Your task to perform on an android device: Play the new Ariana Grande video on YouTube Image 0: 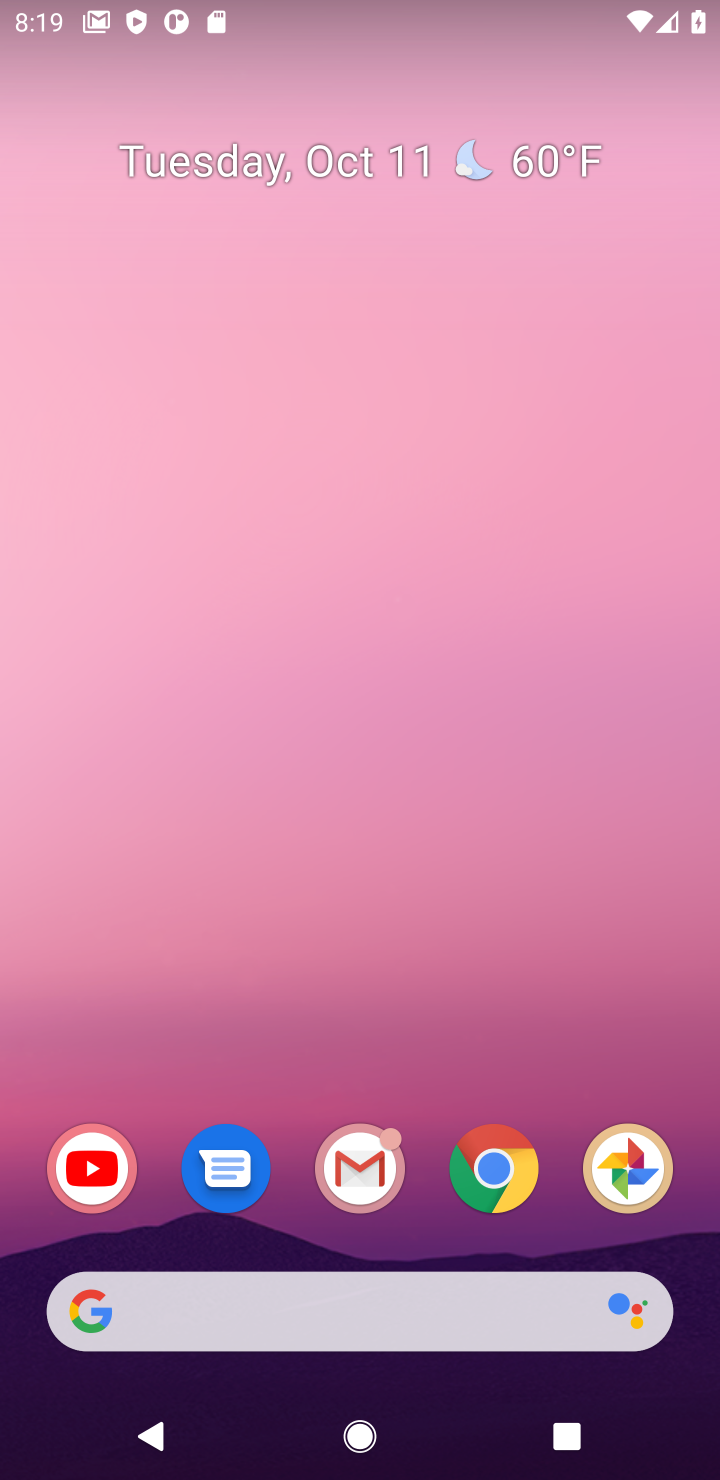
Step 0: click (467, 1170)
Your task to perform on an android device: Play the new Ariana Grande video on YouTube Image 1: 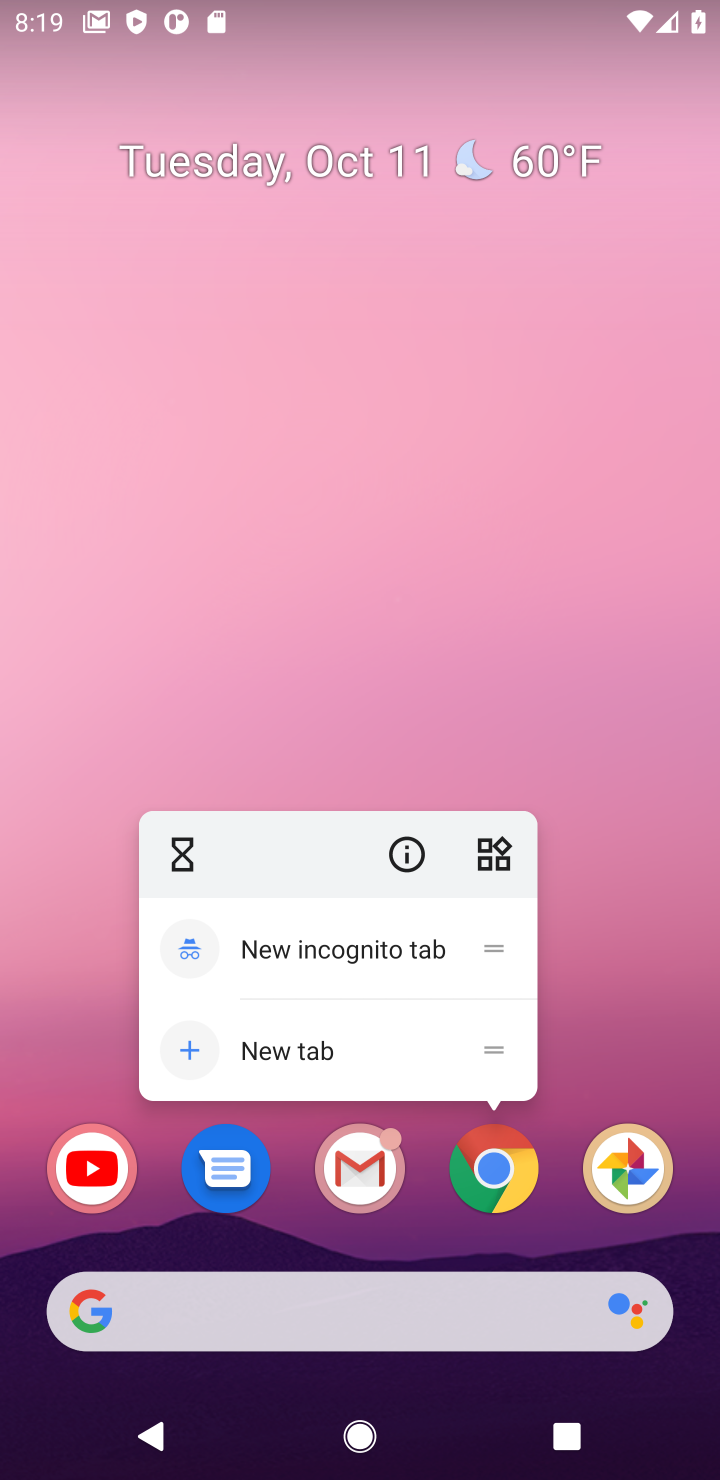
Step 1: drag from (611, 636) to (626, 411)
Your task to perform on an android device: Play the new Ariana Grande video on YouTube Image 2: 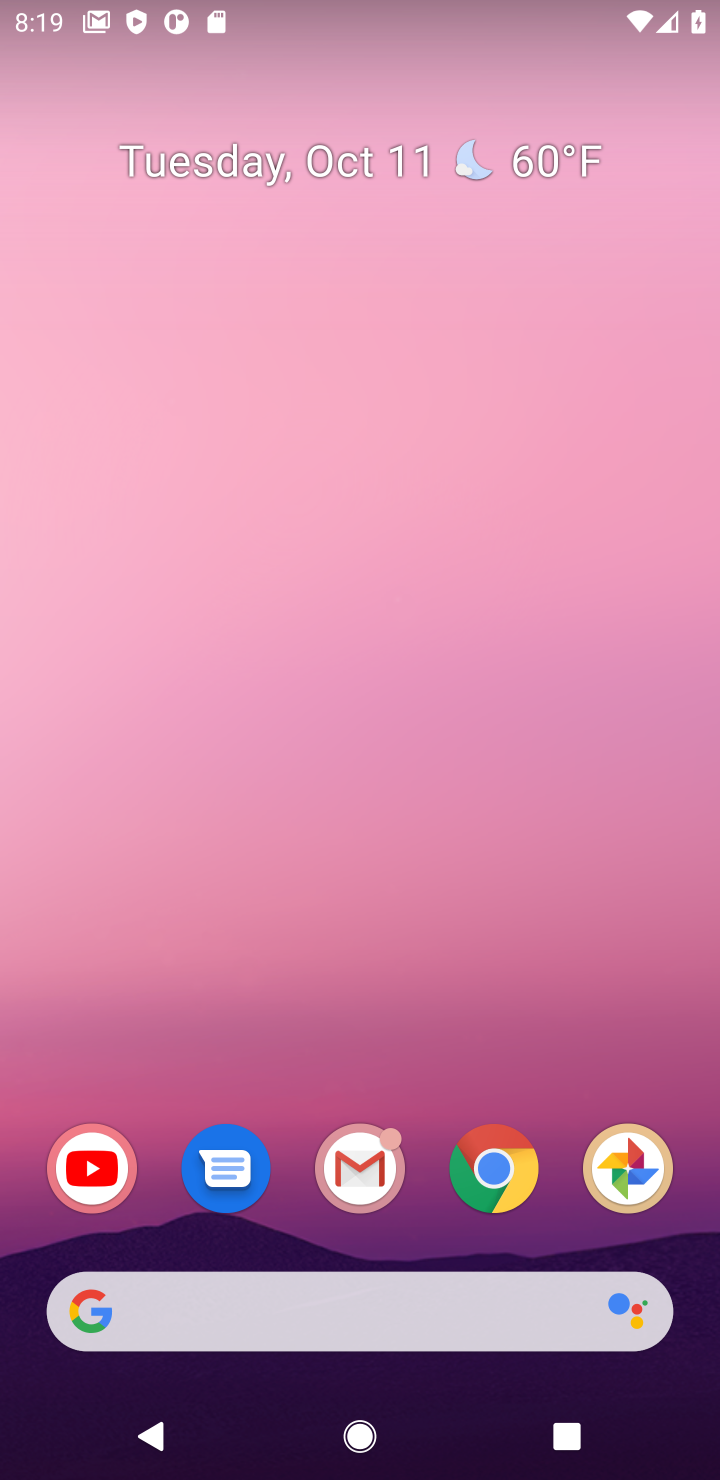
Step 2: click (79, 1172)
Your task to perform on an android device: Play the new Ariana Grande video on YouTube Image 3: 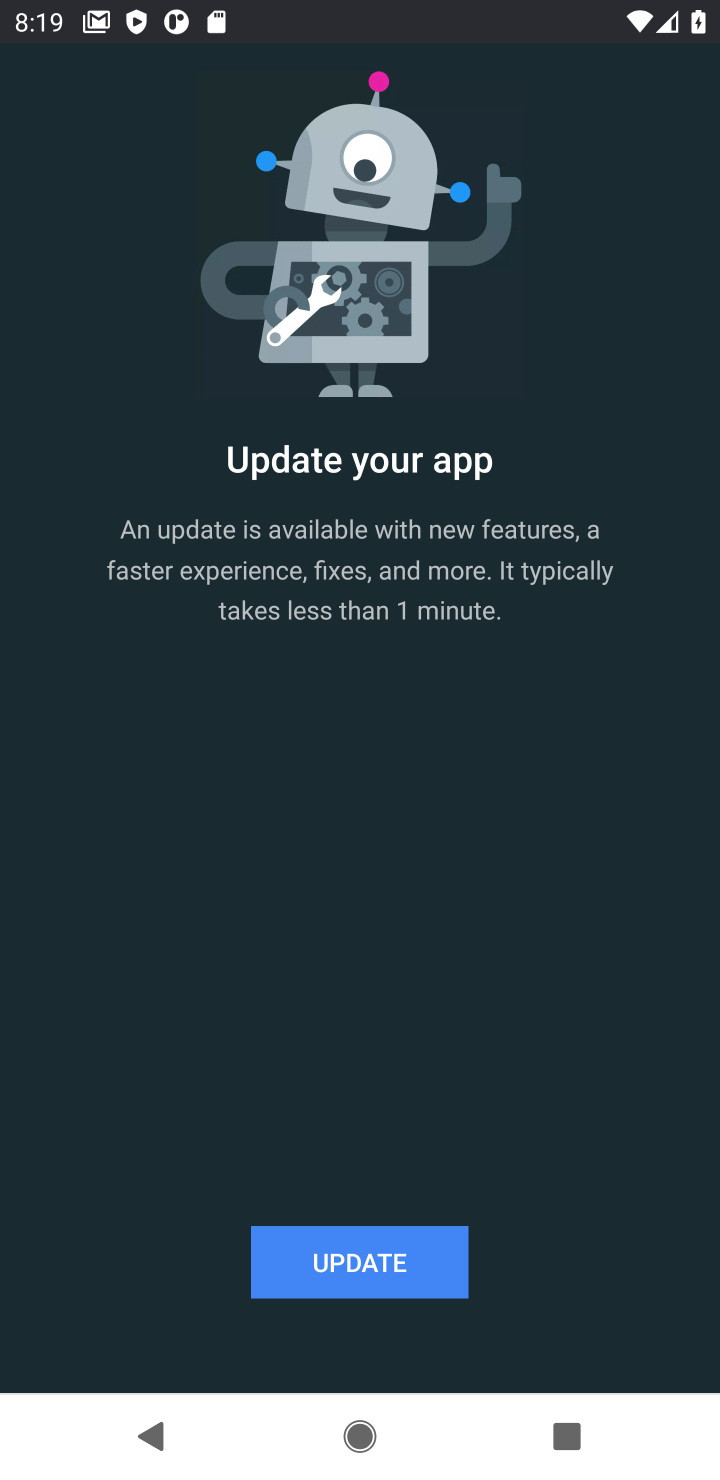
Step 3: click (380, 1267)
Your task to perform on an android device: Play the new Ariana Grande video on YouTube Image 4: 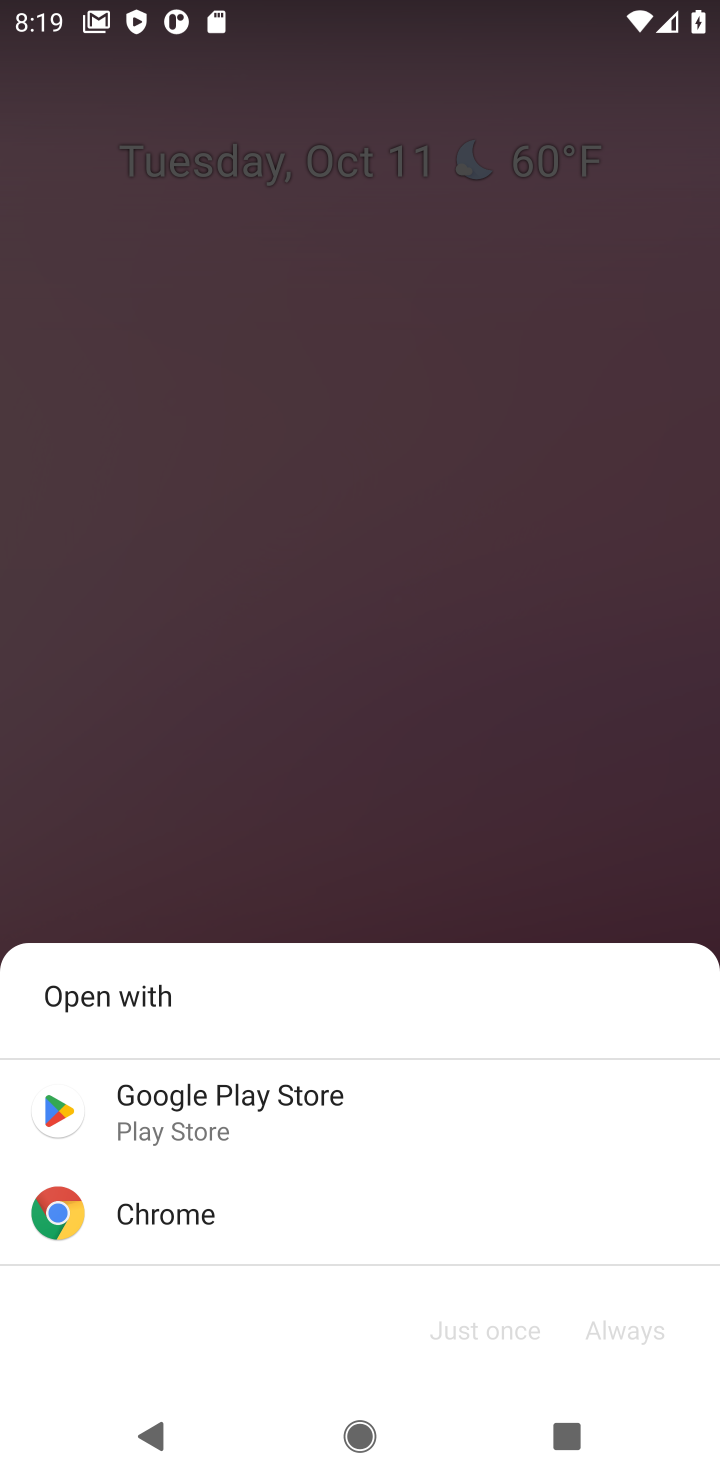
Step 4: click (442, 703)
Your task to perform on an android device: Play the new Ariana Grande video on YouTube Image 5: 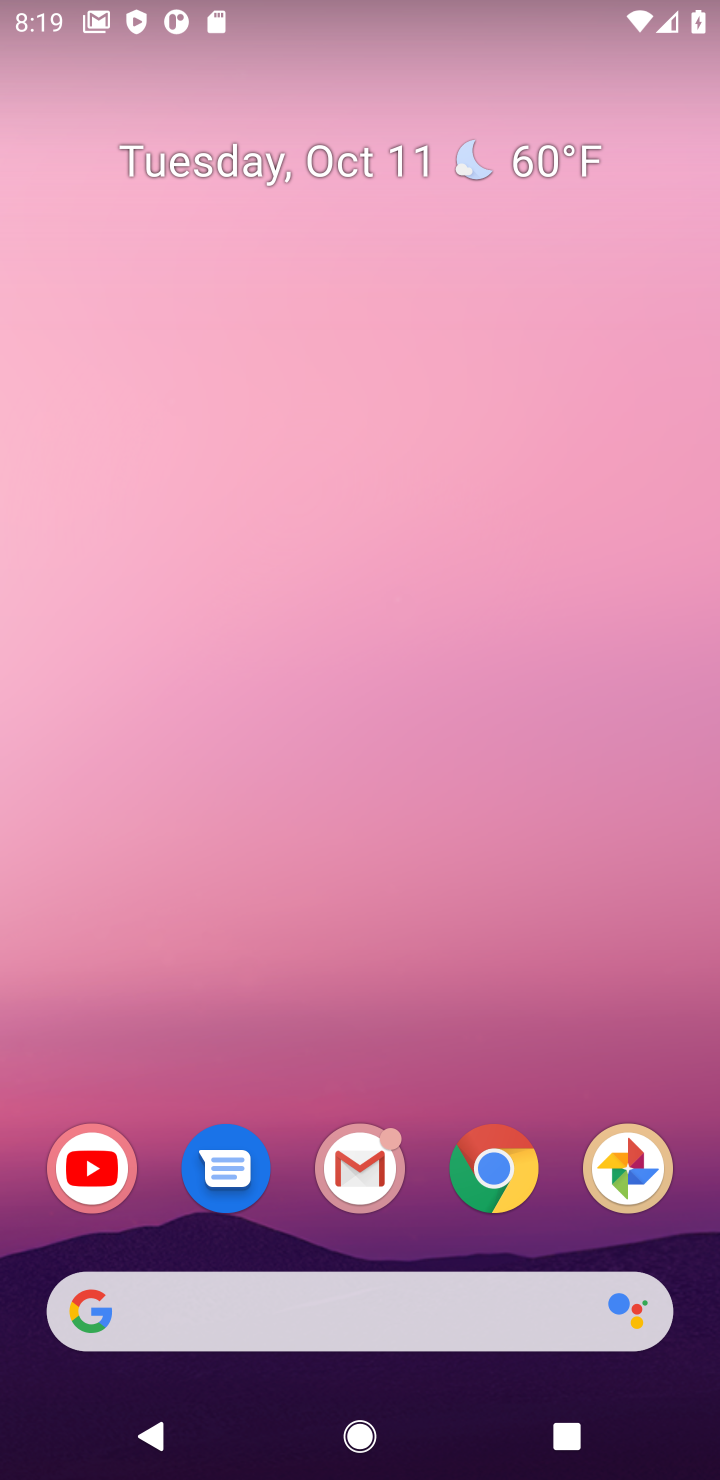
Step 5: press home button
Your task to perform on an android device: Play the new Ariana Grande video on YouTube Image 6: 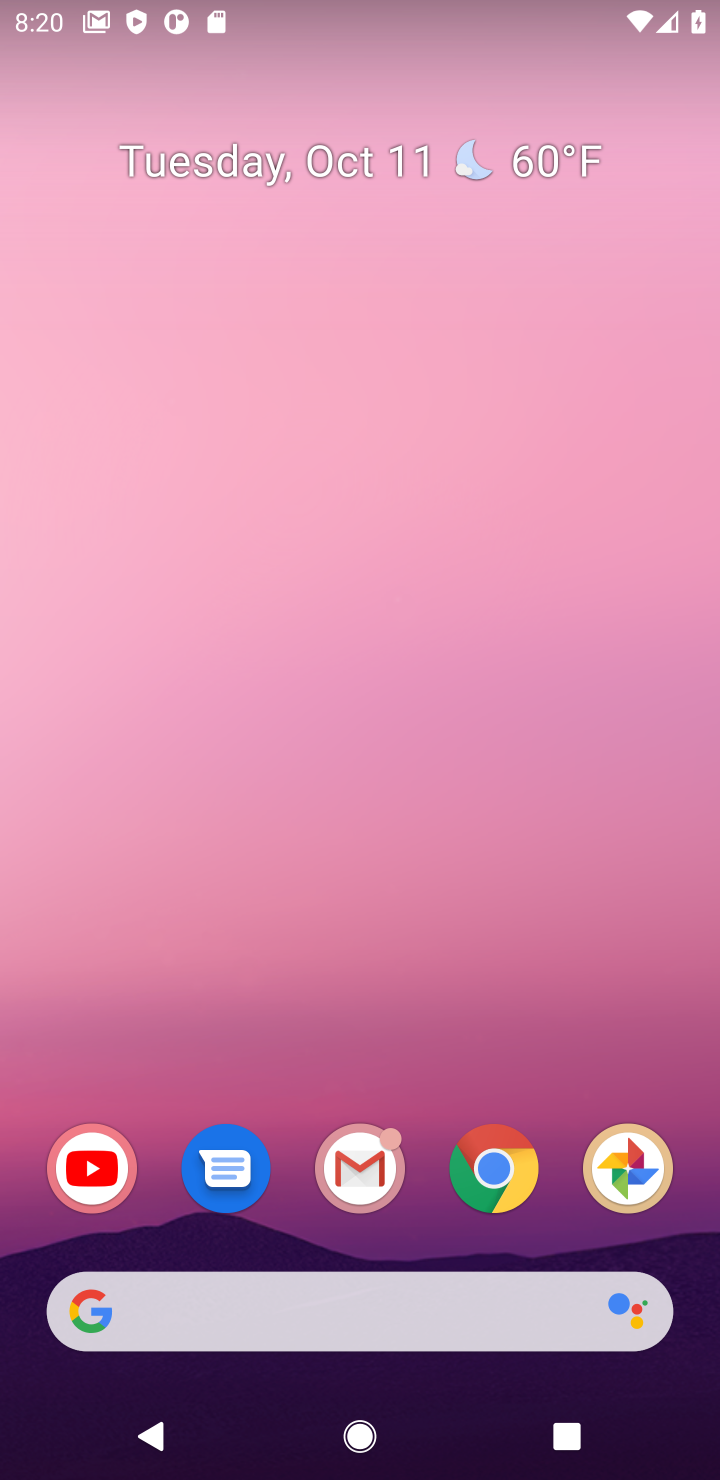
Step 6: drag from (411, 774) to (447, 290)
Your task to perform on an android device: Play the new Ariana Grande video on YouTube Image 7: 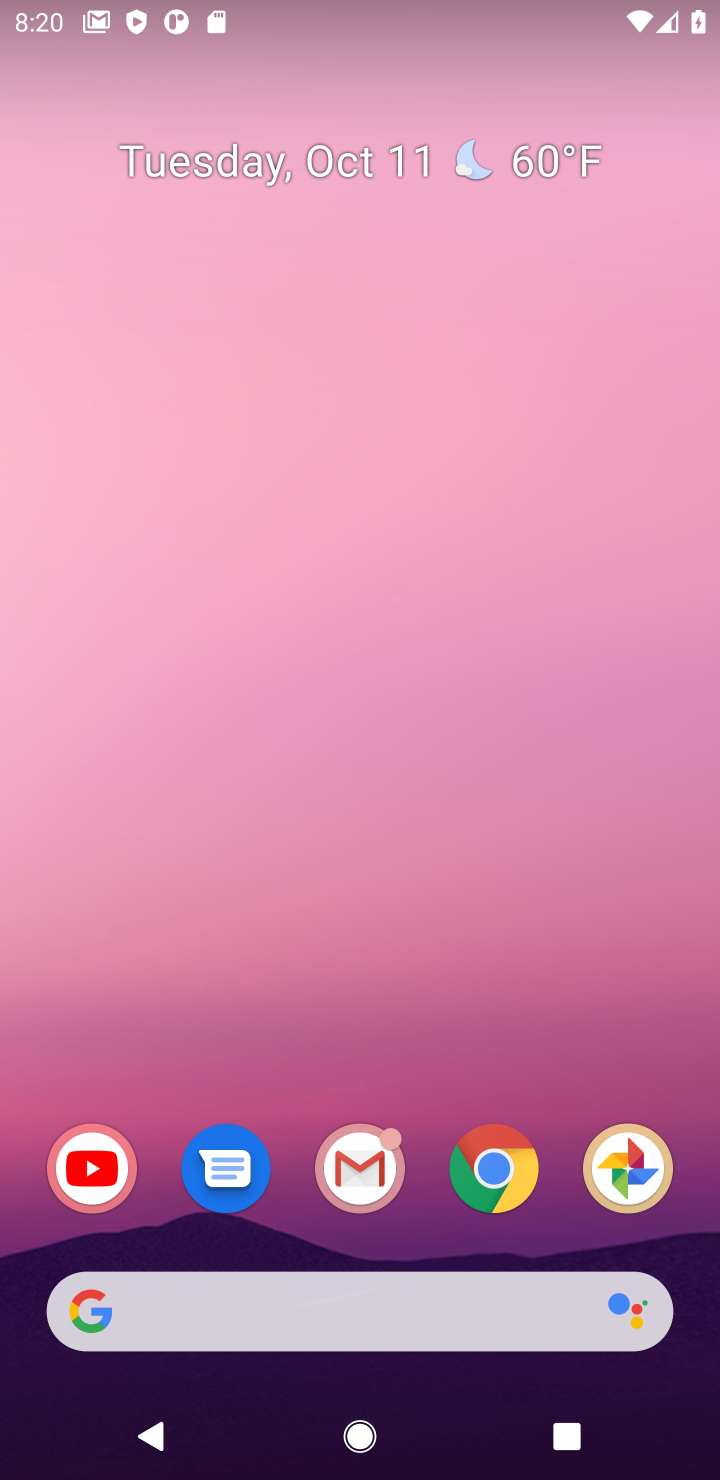
Step 7: drag from (383, 695) to (429, 362)
Your task to perform on an android device: Play the new Ariana Grande video on YouTube Image 8: 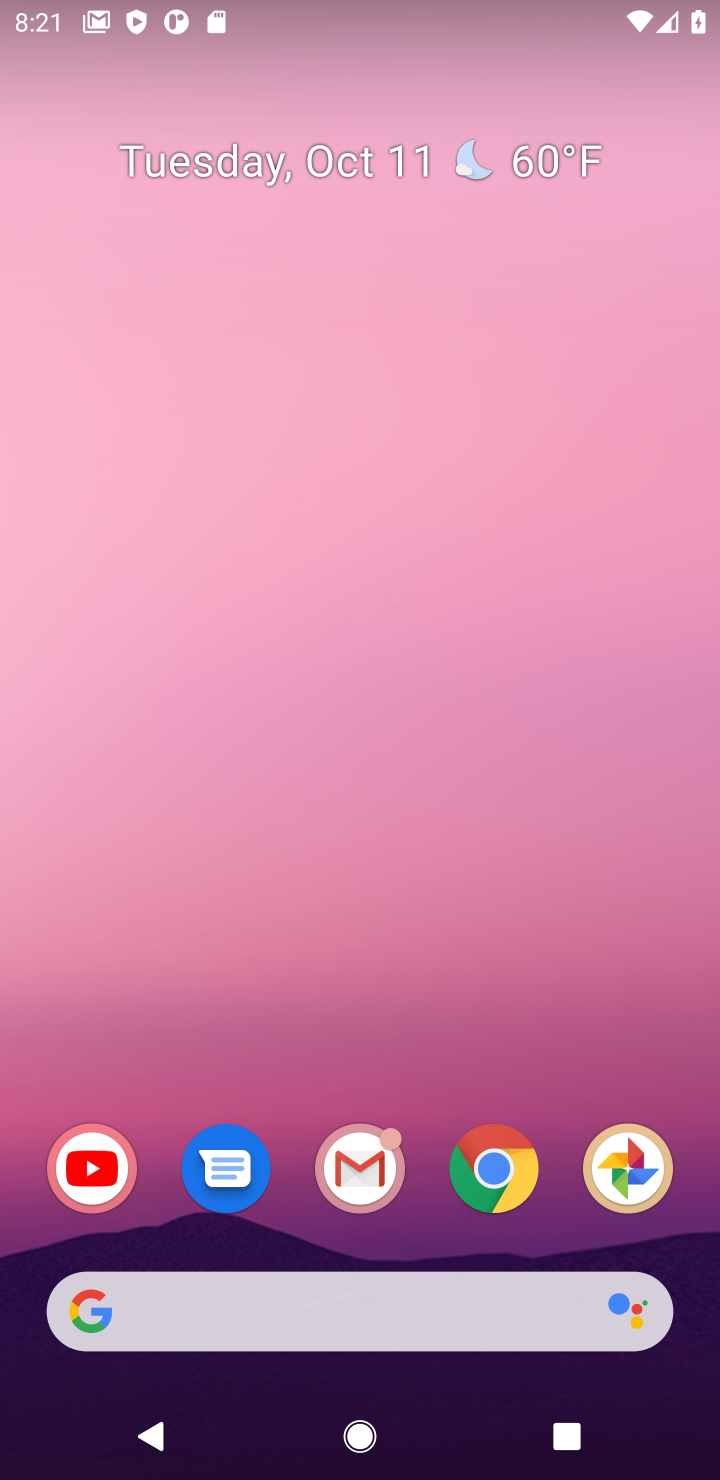
Step 8: click (469, 1151)
Your task to perform on an android device: Play the new Ariana Grande video on YouTube Image 9: 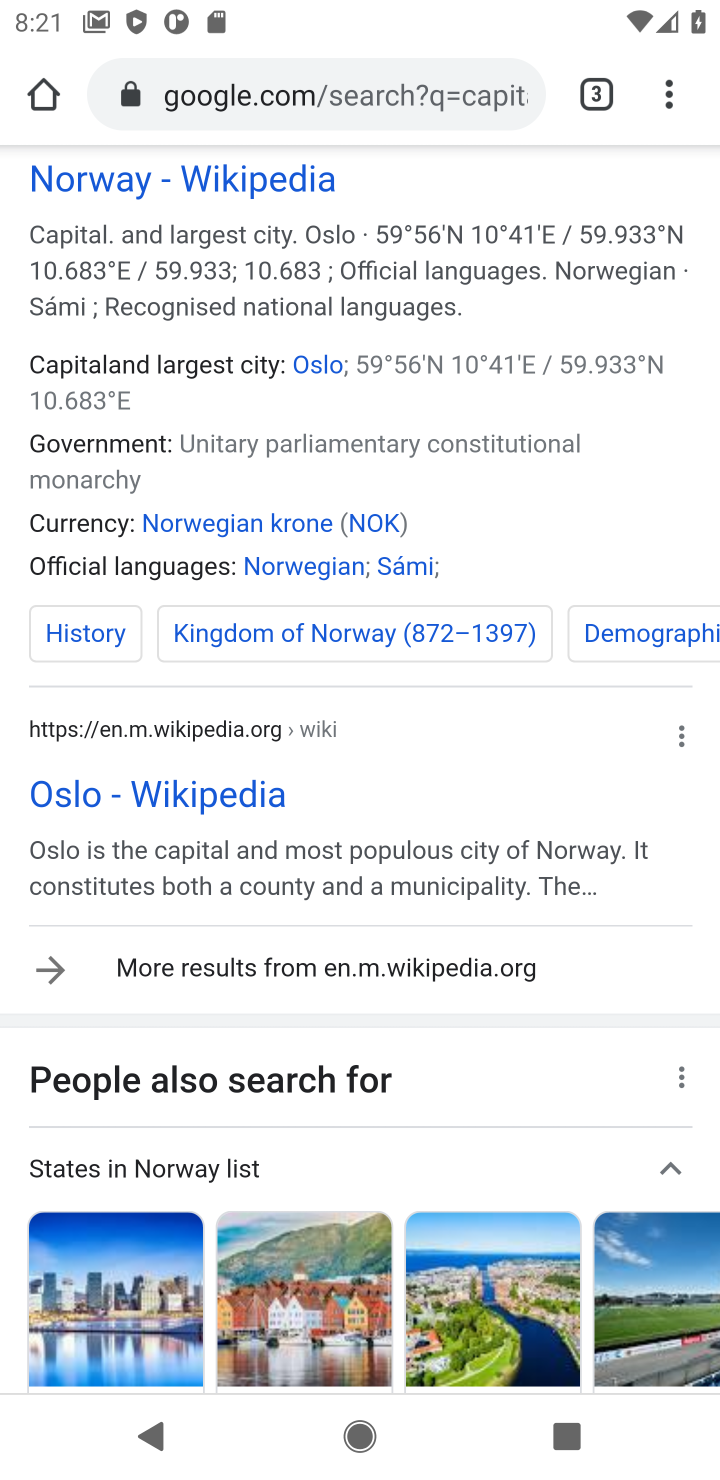
Step 9: click (204, 107)
Your task to perform on an android device: Play the new Ariana Grande video on YouTube Image 10: 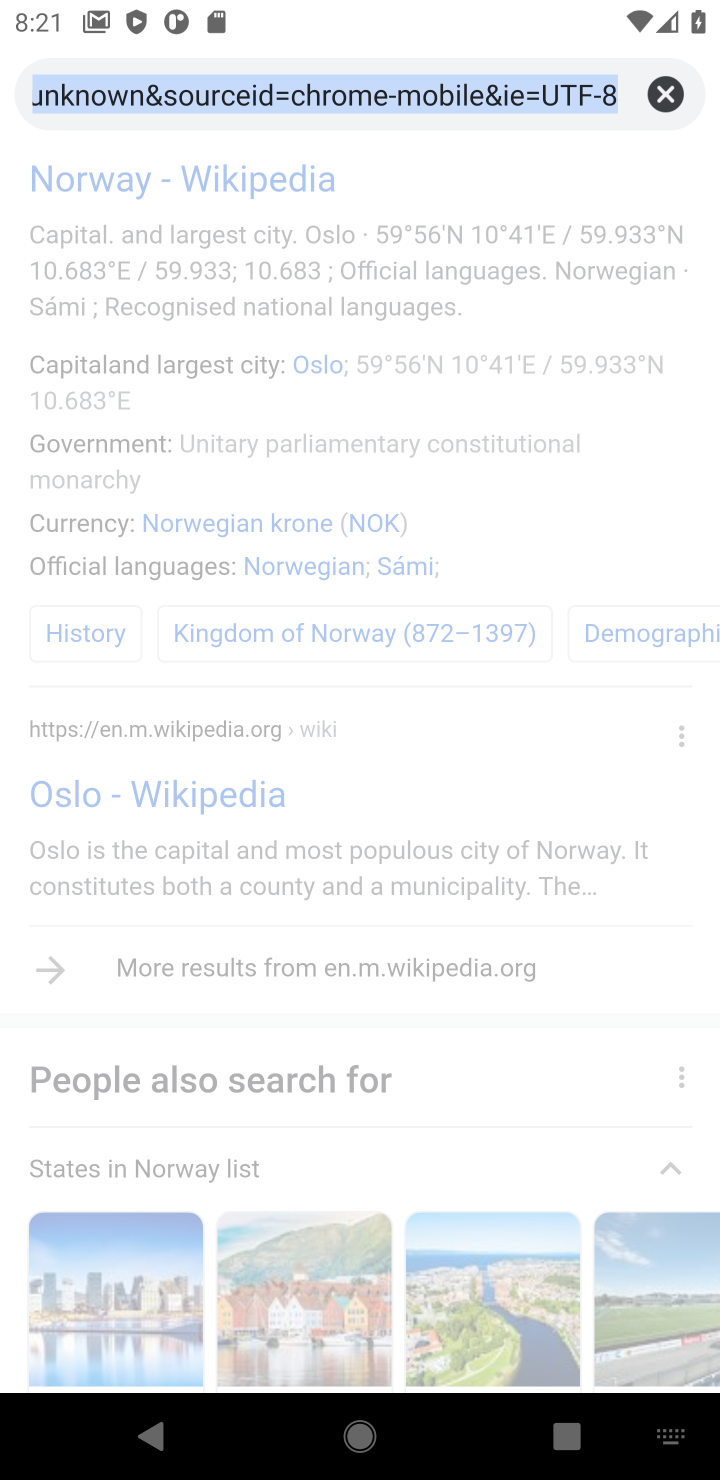
Step 10: click (670, 79)
Your task to perform on an android device: Play the new Ariana Grande video on YouTube Image 11: 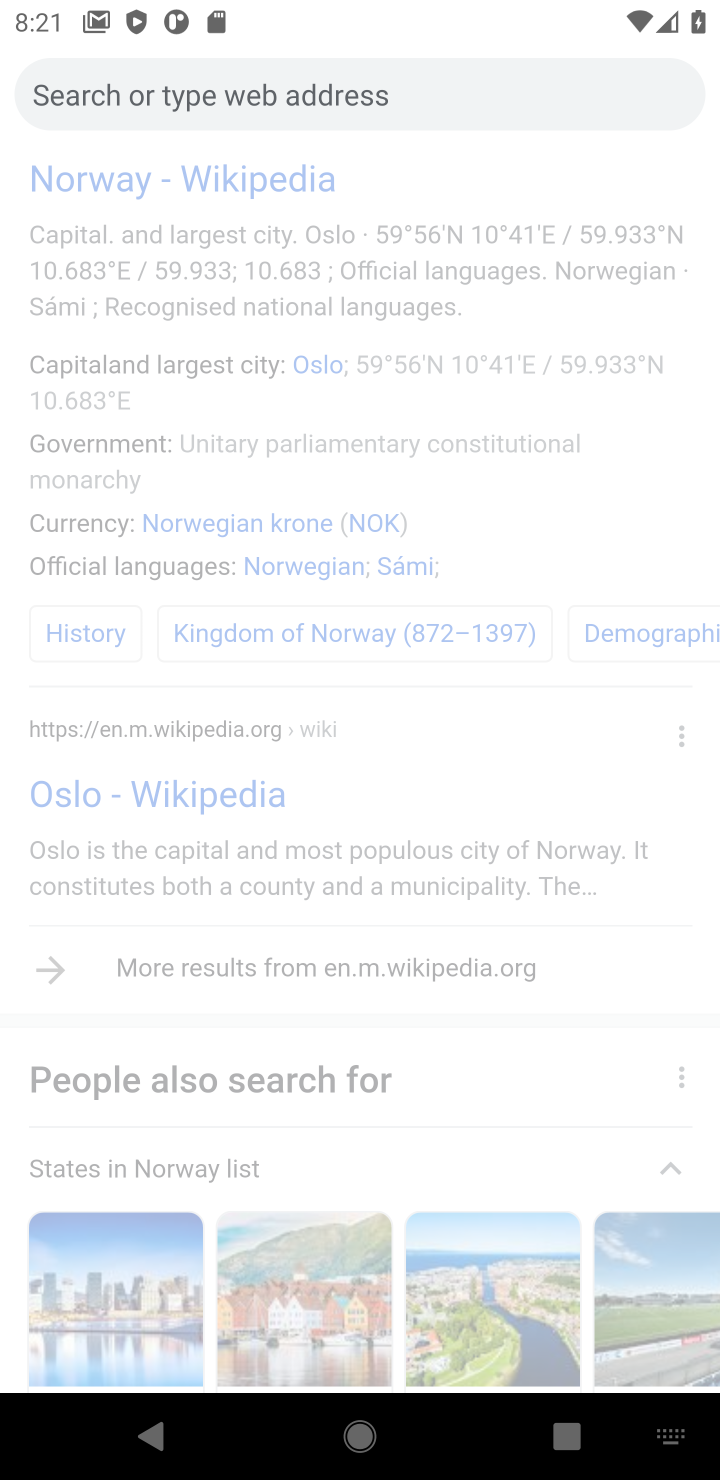
Step 11: press home button
Your task to perform on an android device: Play the new Ariana Grande video on YouTube Image 12: 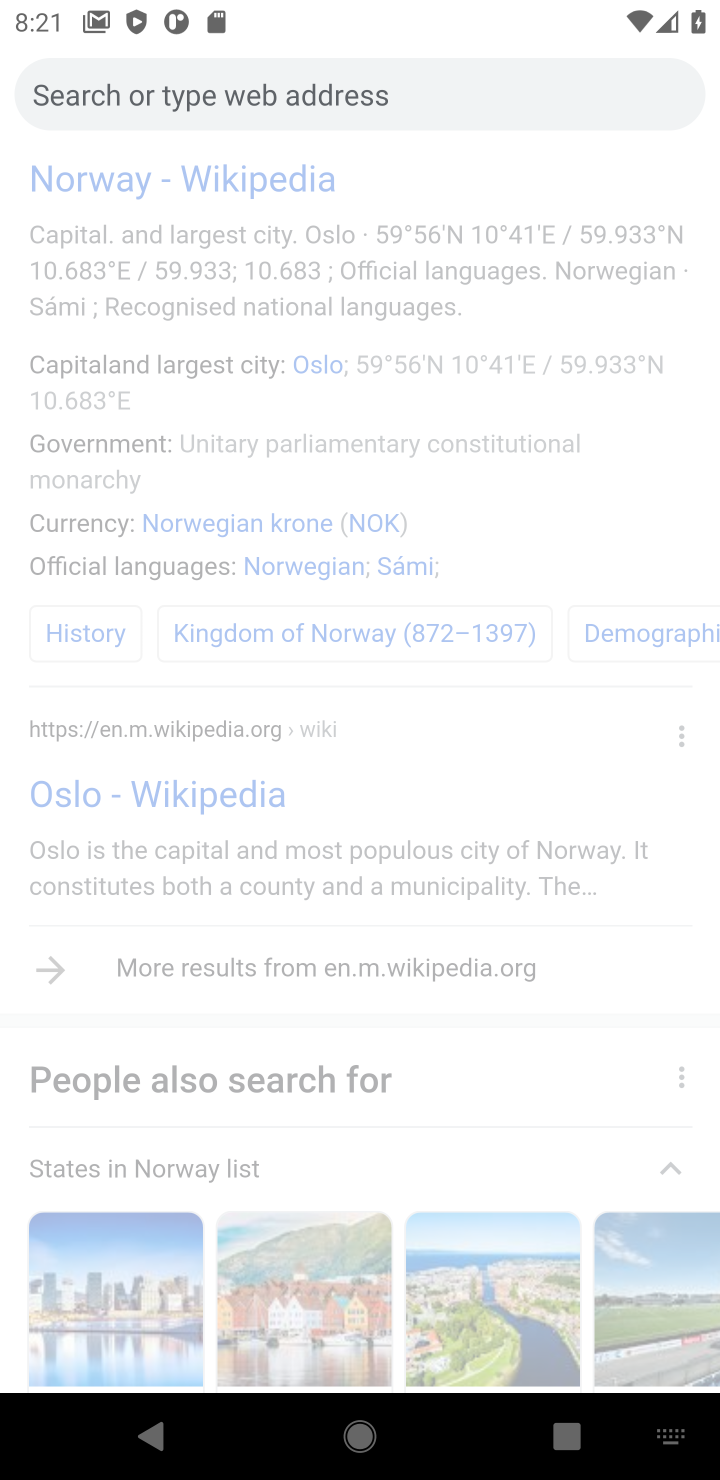
Step 12: type "n"
Your task to perform on an android device: Play the new Ariana Grande video on YouTube Image 13: 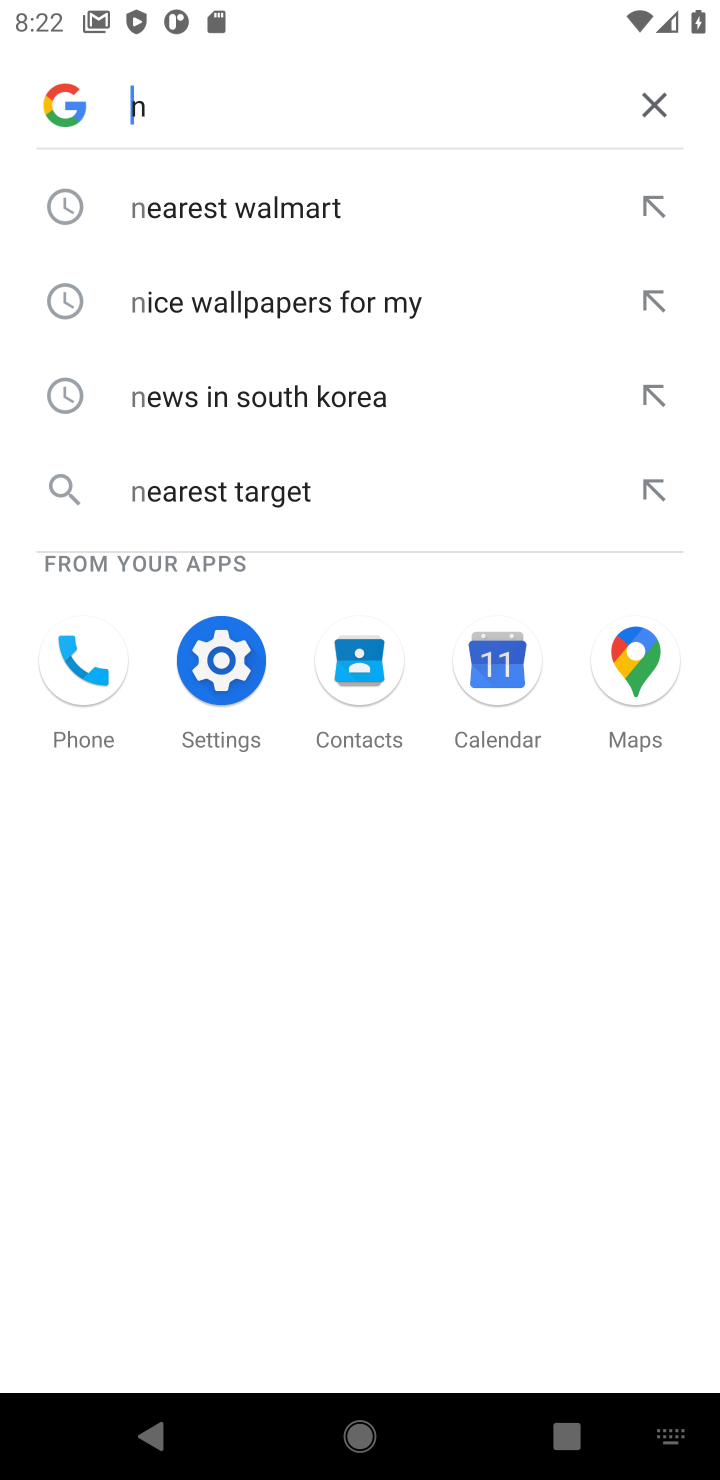
Step 13: click (644, 109)
Your task to perform on an android device: Play the new Ariana Grande video on YouTube Image 14: 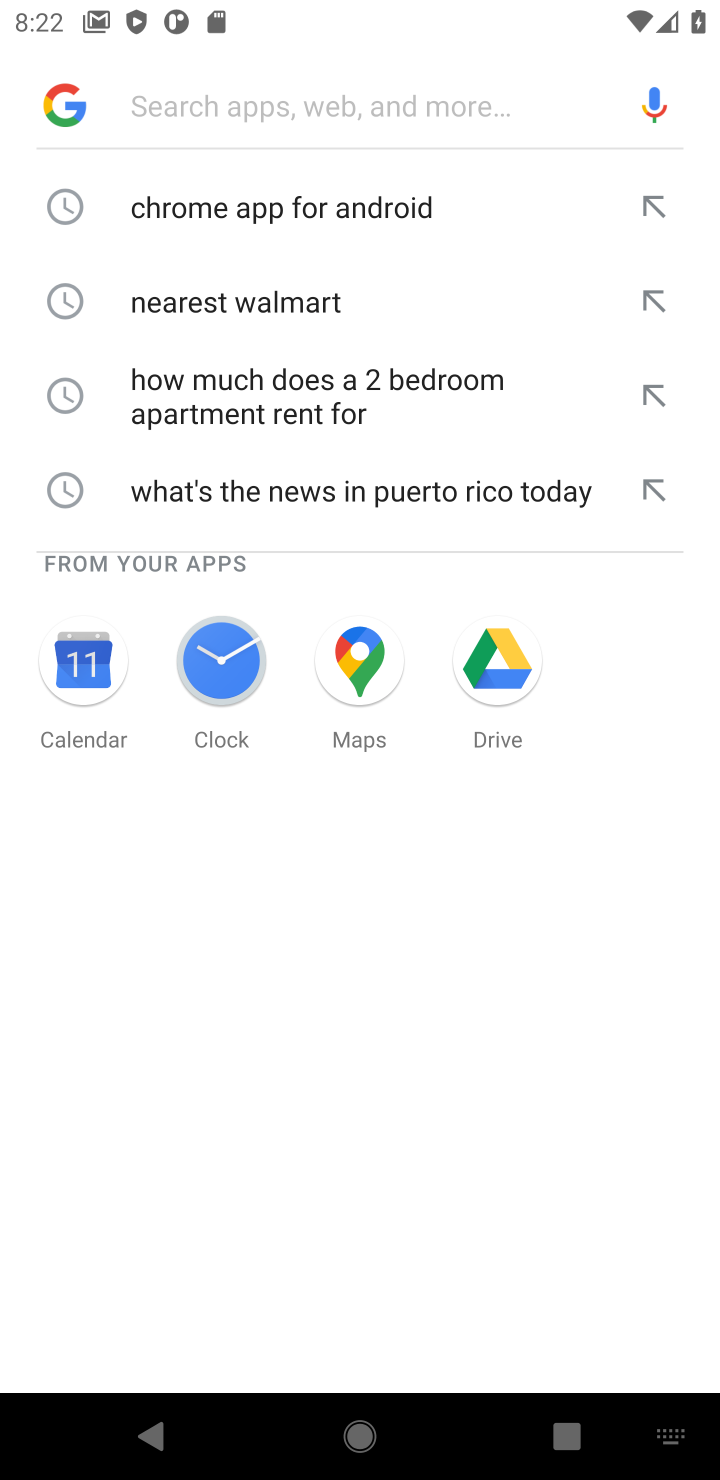
Step 14: press home button
Your task to perform on an android device: Play the new Ariana Grande video on YouTube Image 15: 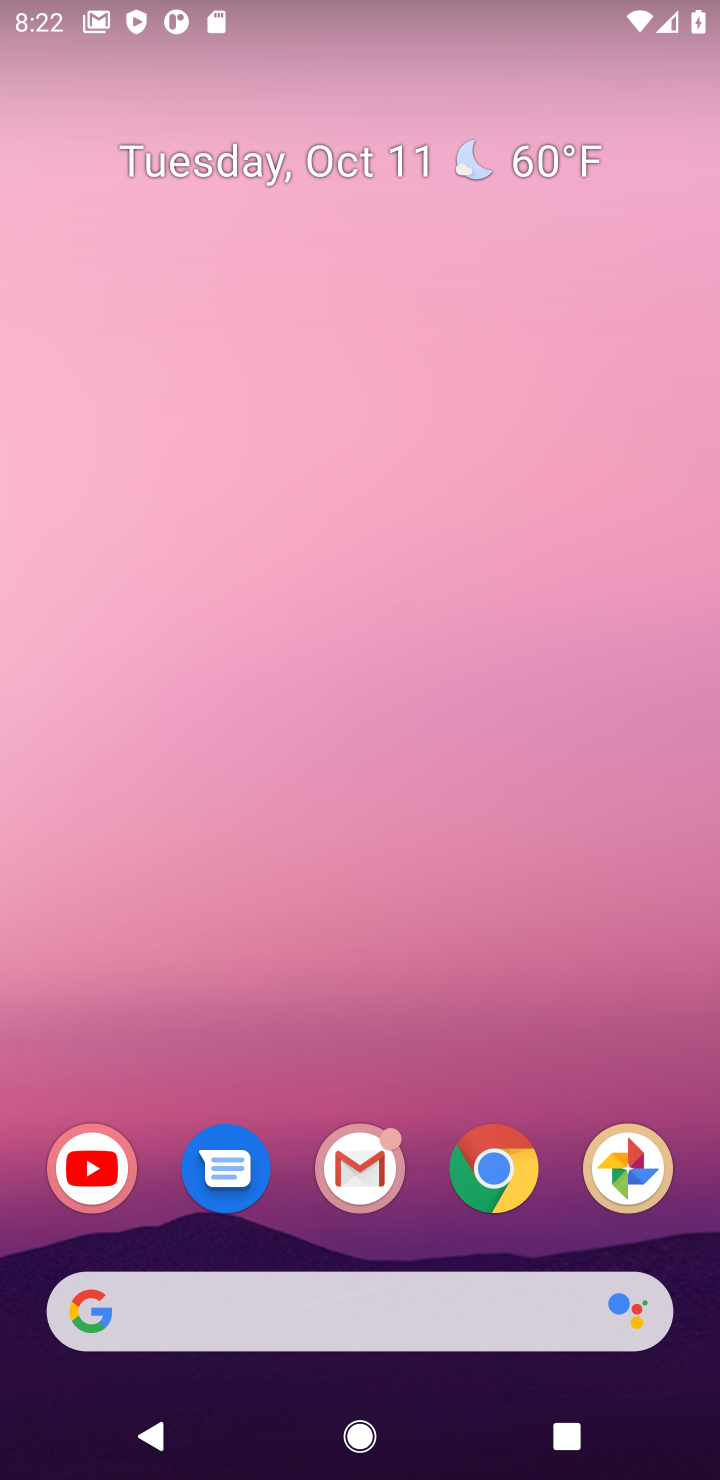
Step 15: drag from (337, 1000) to (355, 309)
Your task to perform on an android device: Play the new Ariana Grande video on YouTube Image 16: 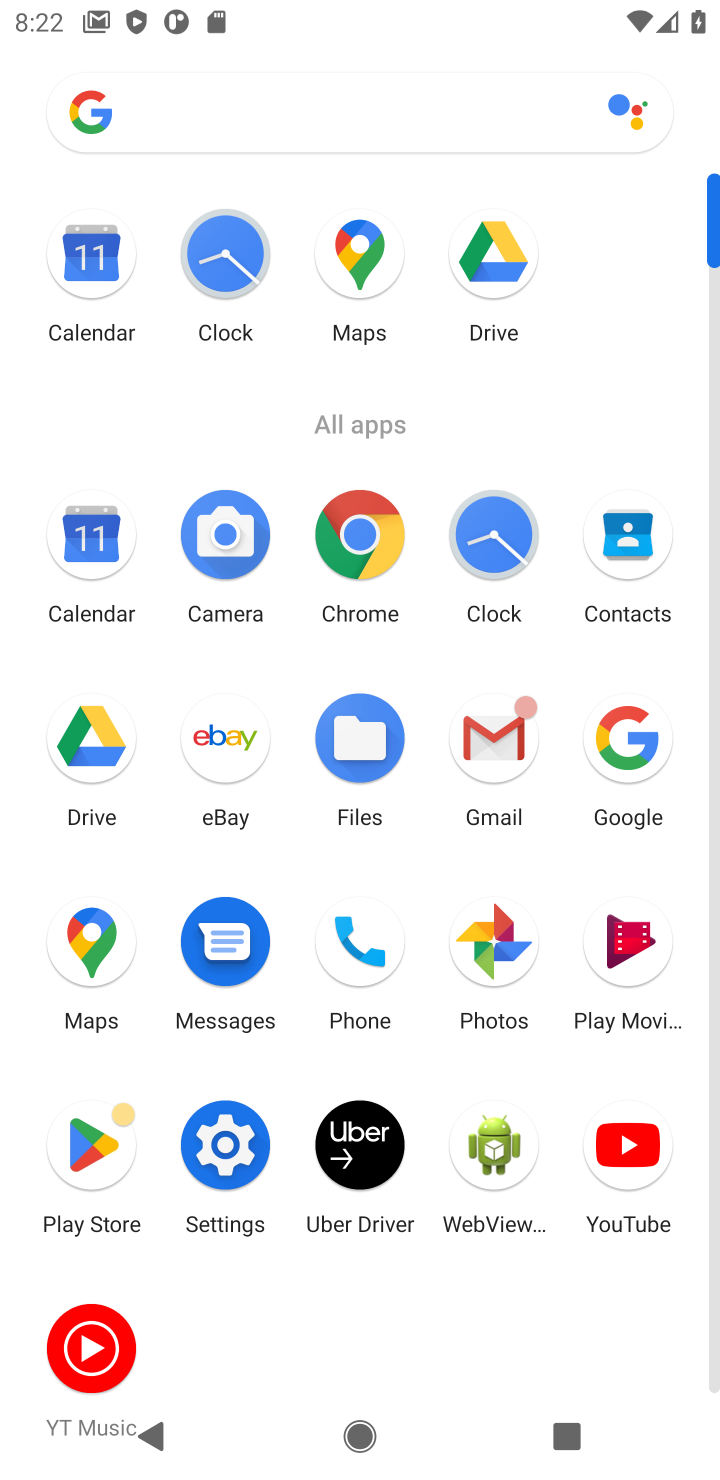
Step 16: click (621, 1132)
Your task to perform on an android device: Play the new Ariana Grande video on YouTube Image 17: 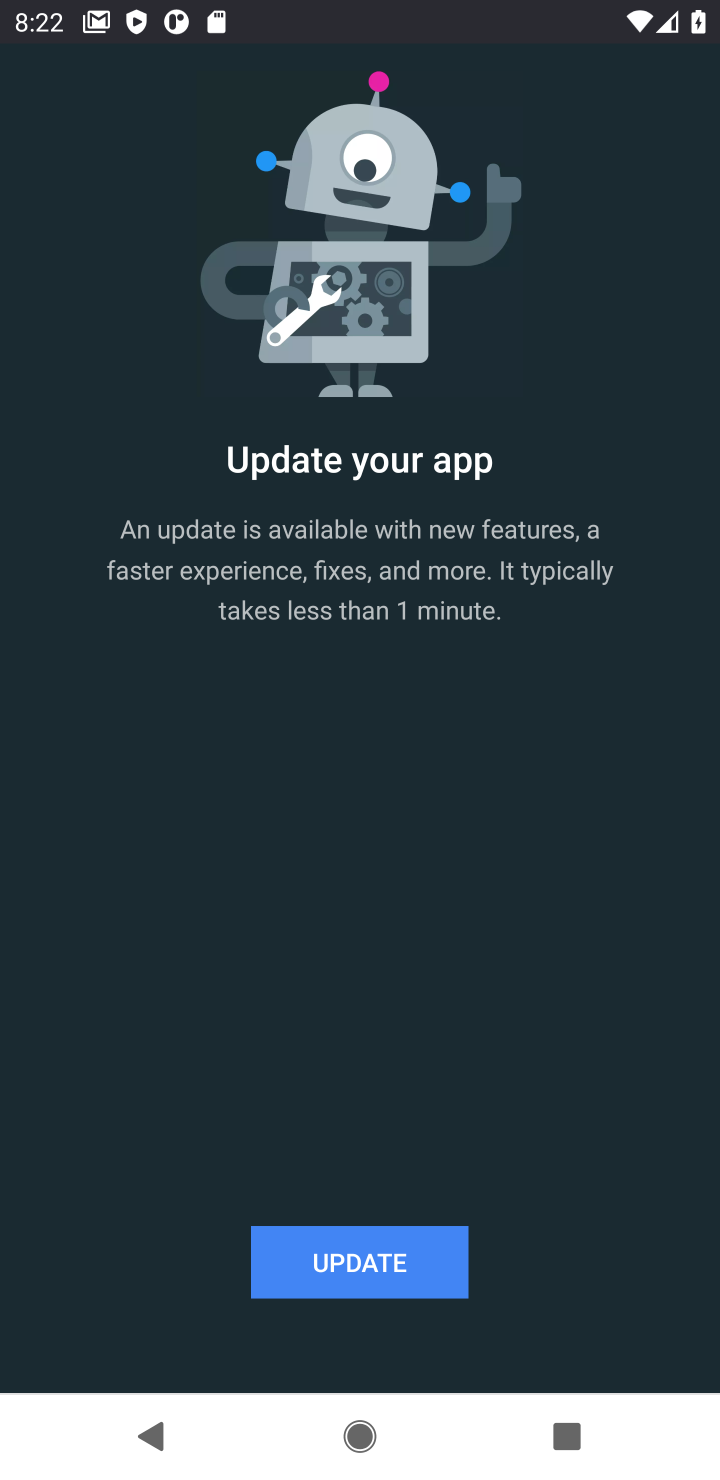
Step 17: click (393, 1262)
Your task to perform on an android device: Play the new Ariana Grande video on YouTube Image 18: 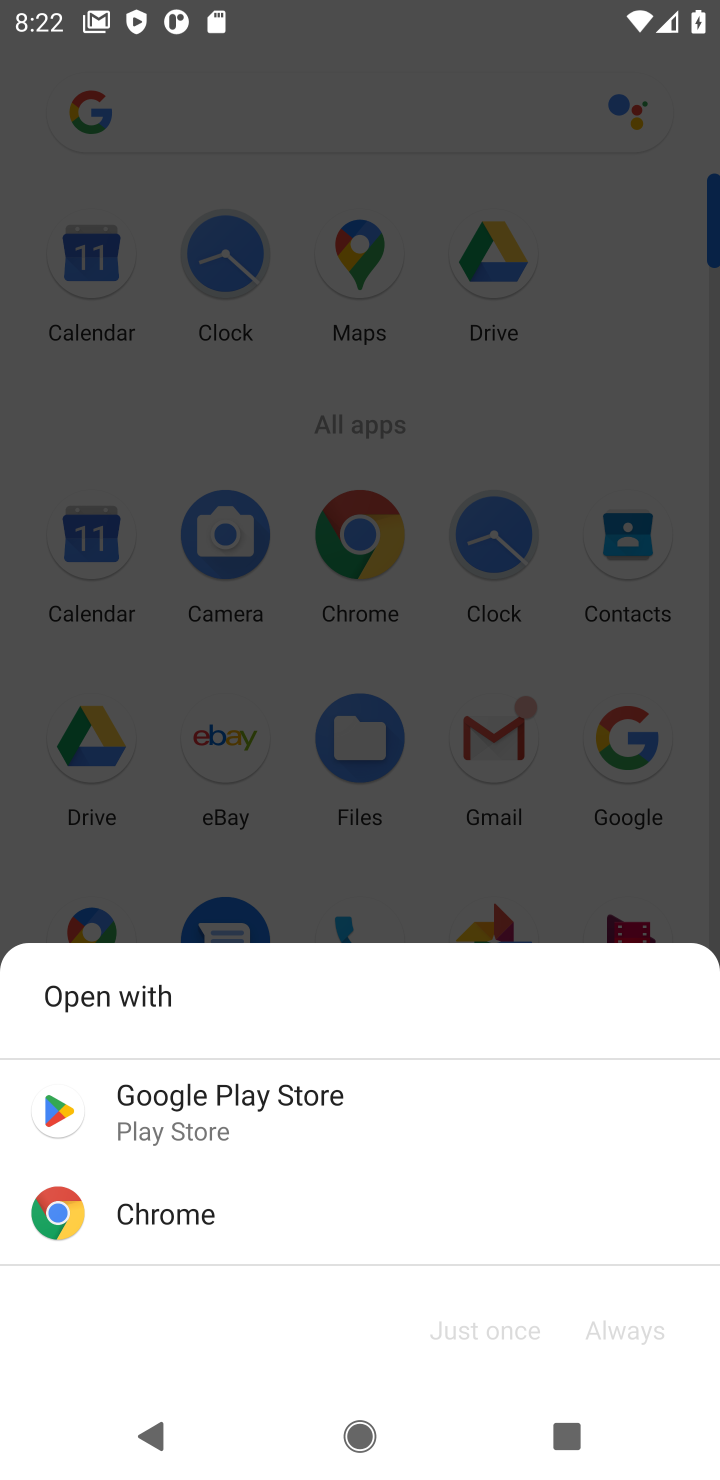
Step 18: click (74, 1227)
Your task to perform on an android device: Play the new Ariana Grande video on YouTube Image 19: 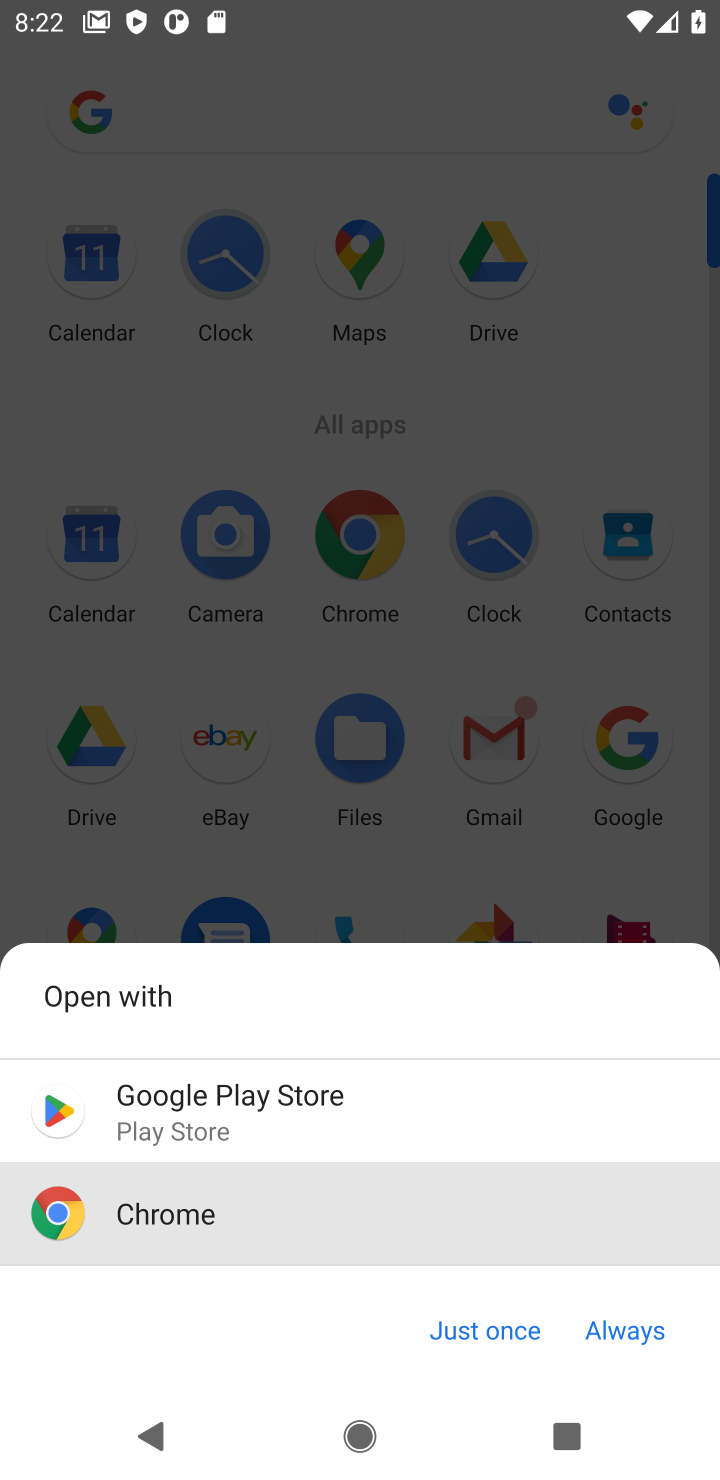
Step 19: click (72, 1216)
Your task to perform on an android device: Play the new Ariana Grande video on YouTube Image 20: 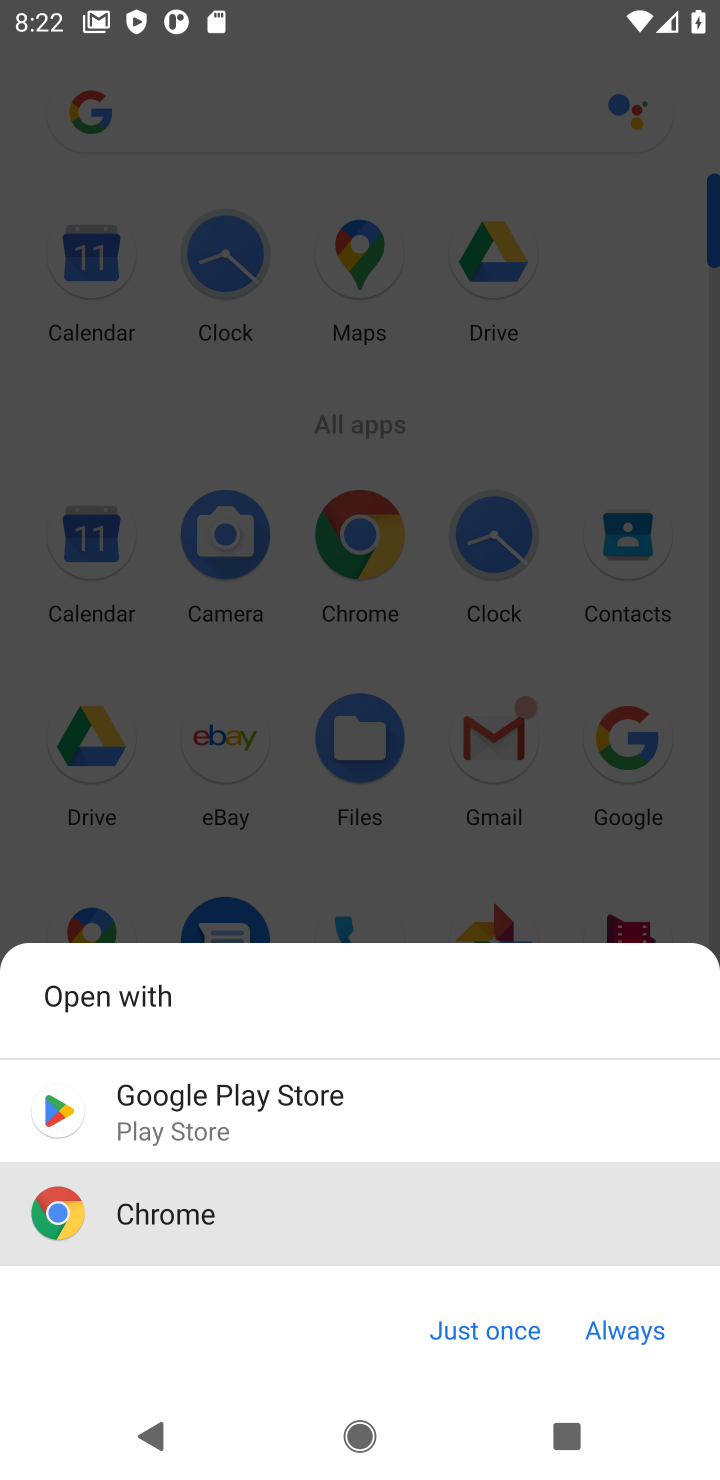
Step 20: click (611, 1329)
Your task to perform on an android device: Play the new Ariana Grande video on YouTube Image 21: 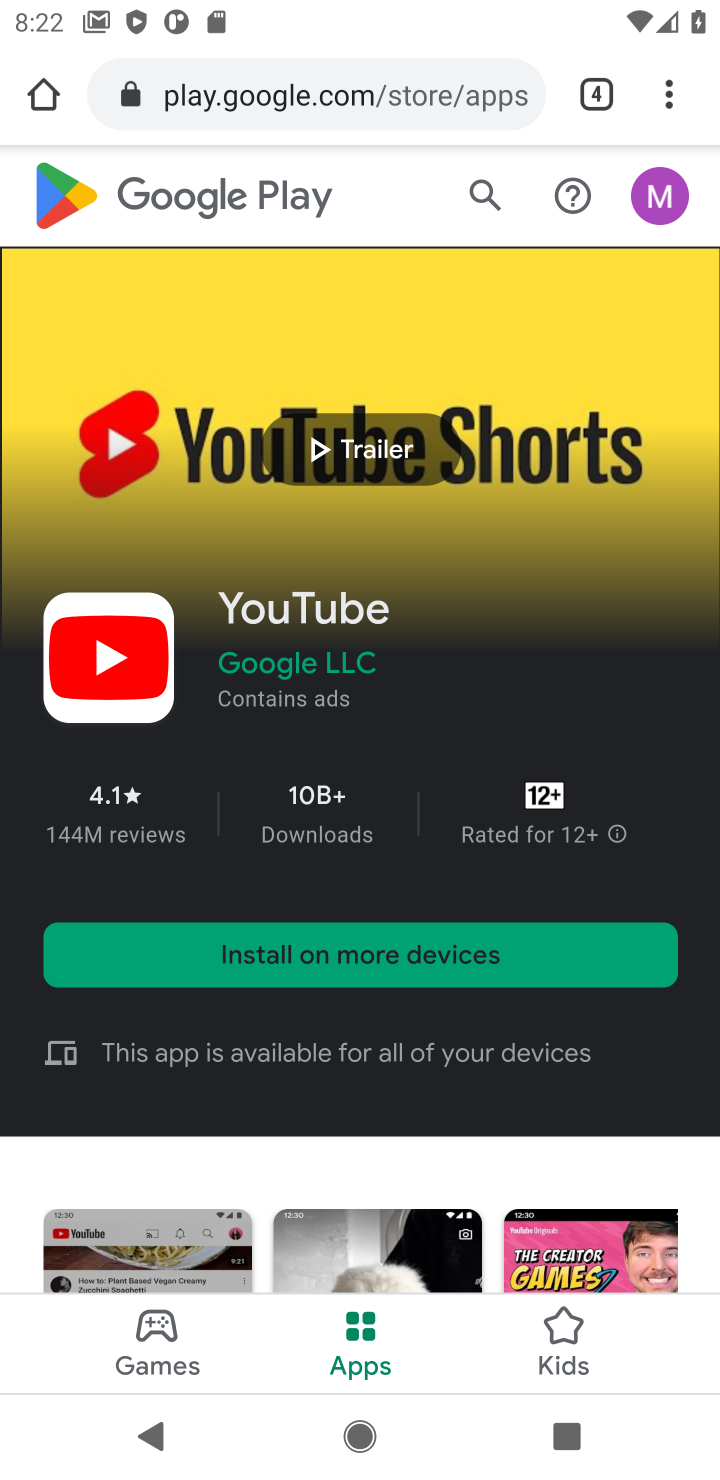
Step 21: click (390, 87)
Your task to perform on an android device: Play the new Ariana Grande video on YouTube Image 22: 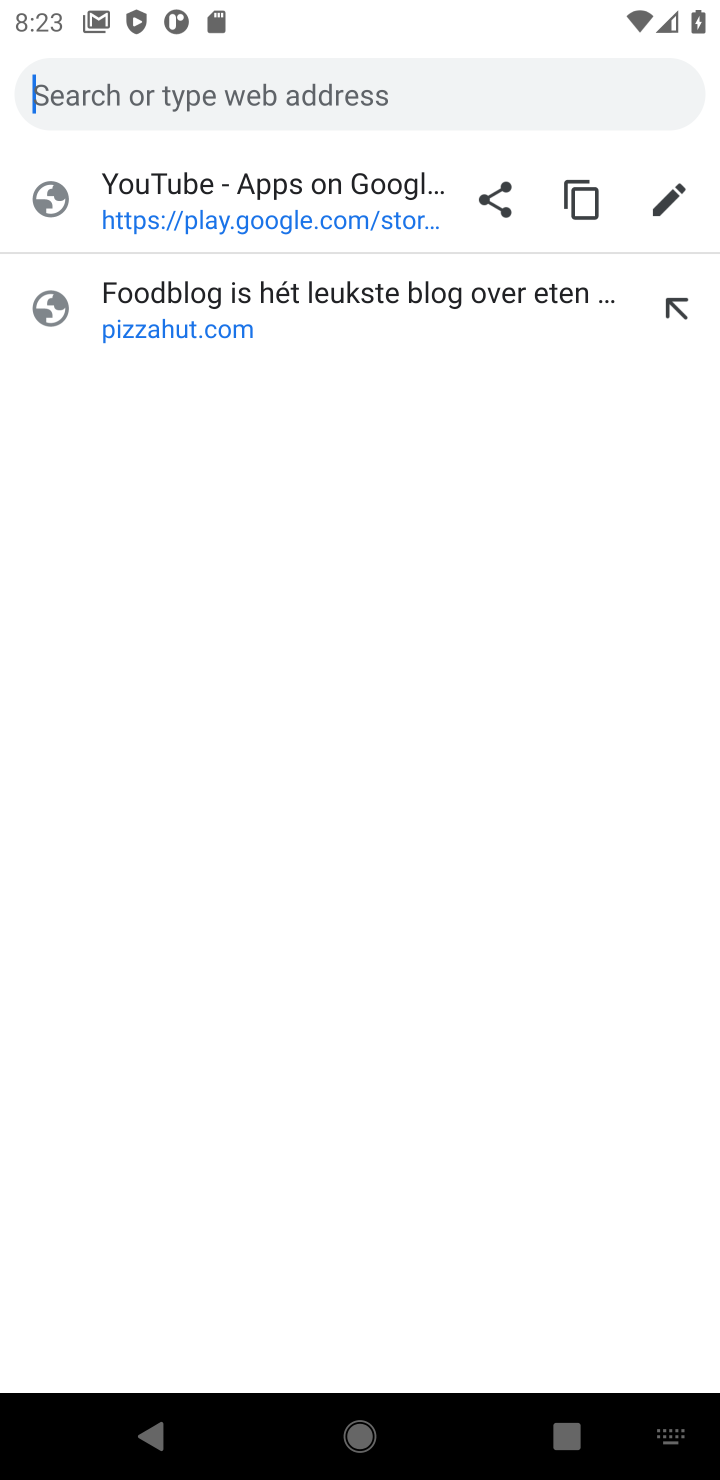
Step 22: type "ariana grande"
Your task to perform on an android device: Play the new Ariana Grande video on YouTube Image 23: 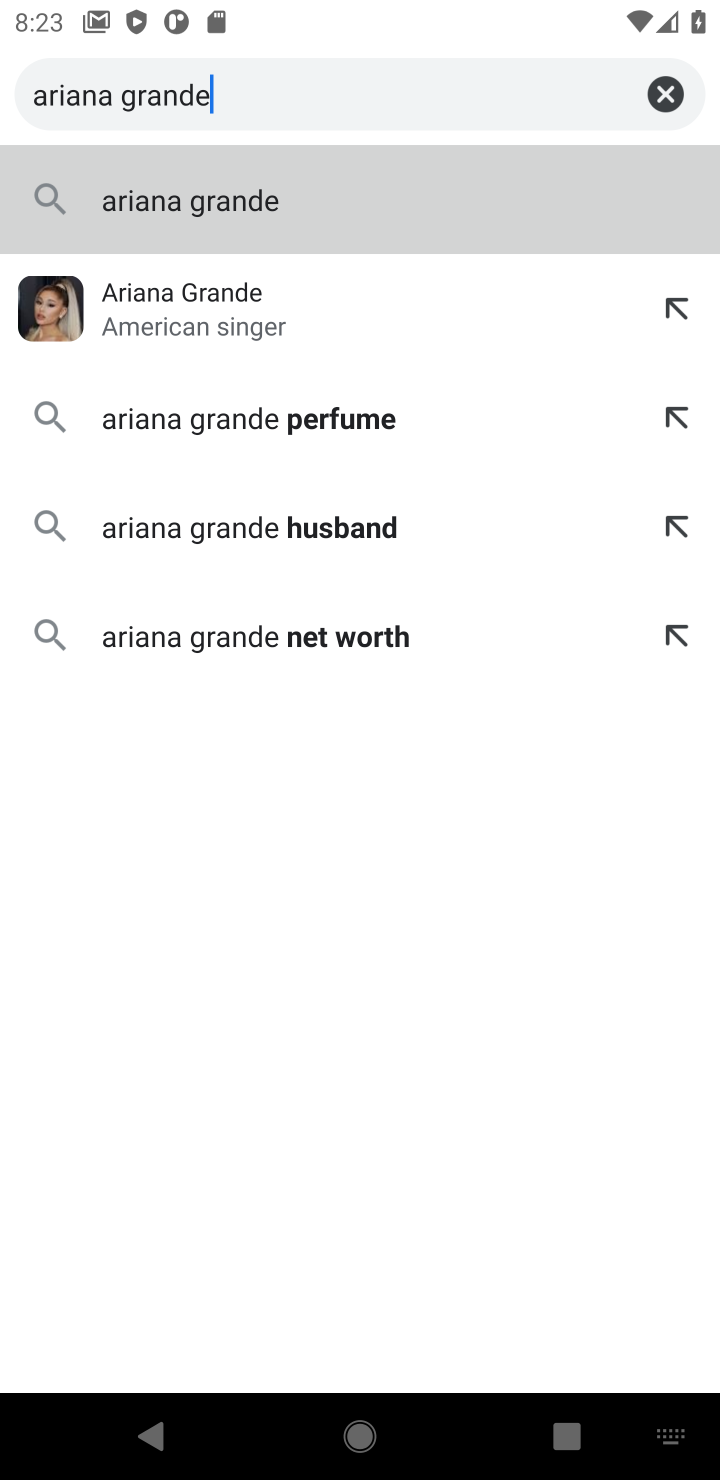
Step 23: click (164, 273)
Your task to perform on an android device: Play the new Ariana Grande video on YouTube Image 24: 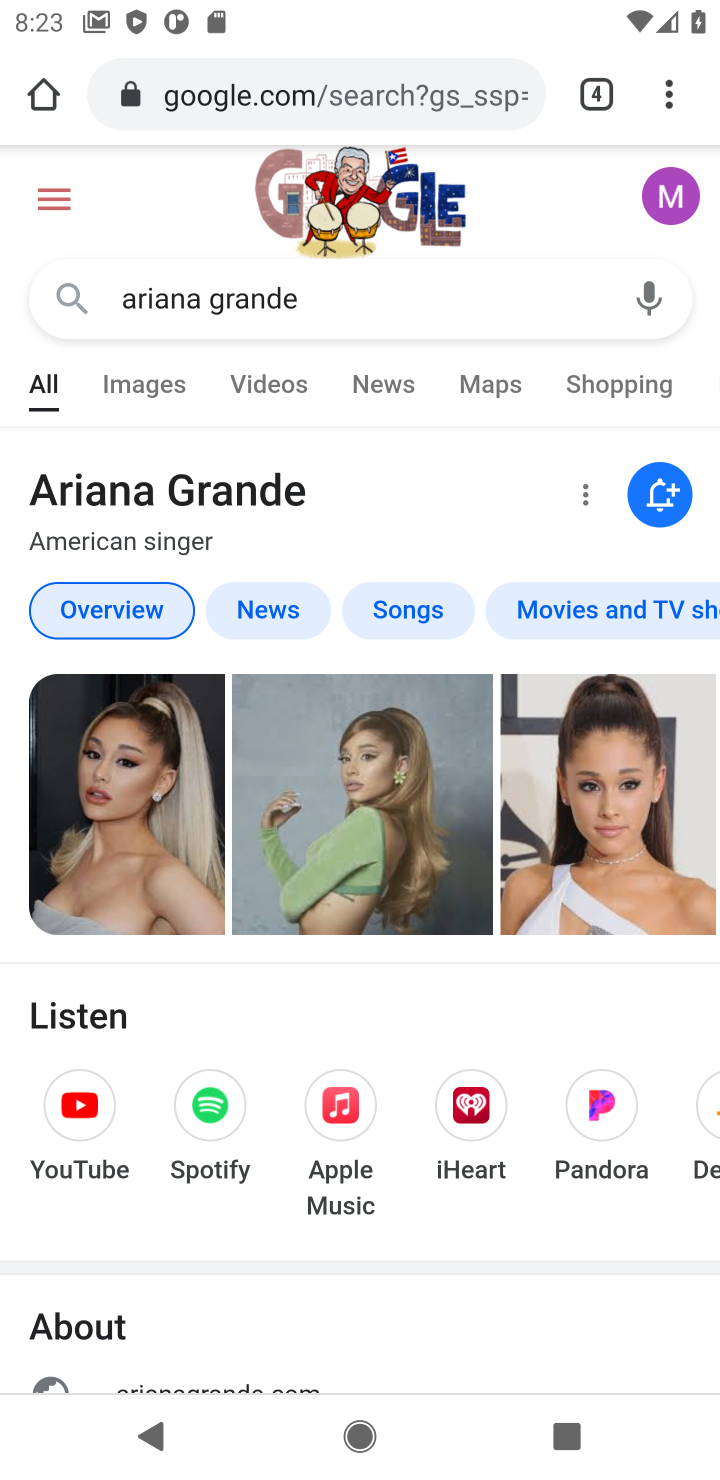
Step 24: drag from (297, 1160) to (318, 591)
Your task to perform on an android device: Play the new Ariana Grande video on YouTube Image 25: 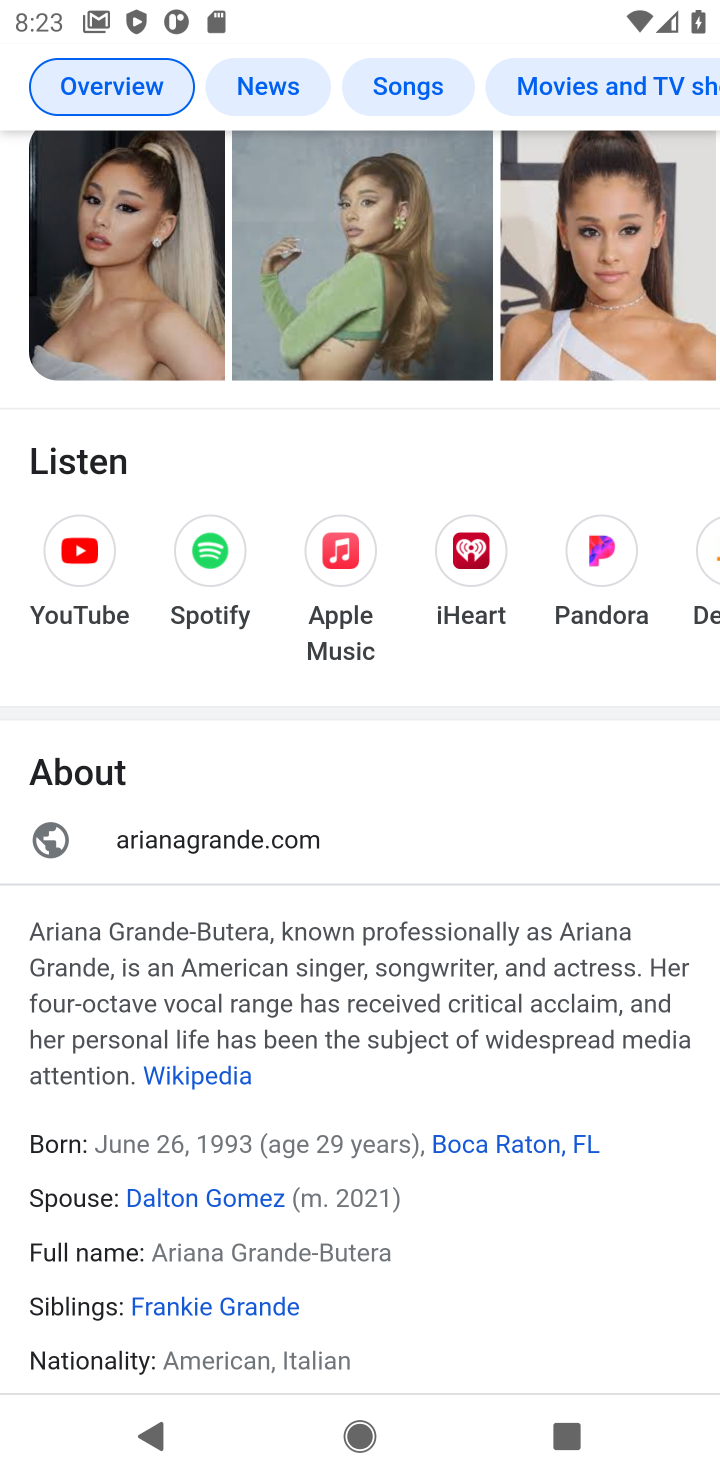
Step 25: drag from (335, 1149) to (298, 527)
Your task to perform on an android device: Play the new Ariana Grande video on YouTube Image 26: 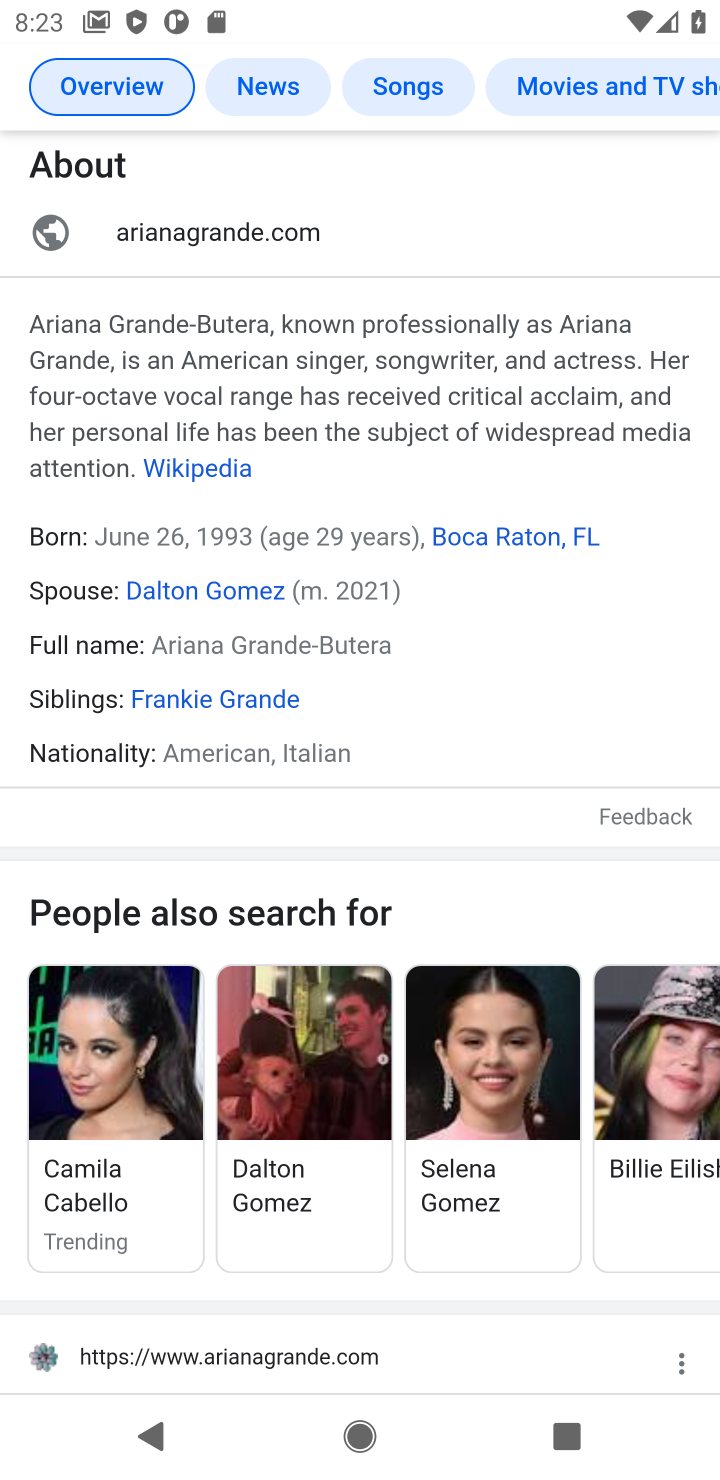
Step 26: drag from (253, 852) to (253, 643)
Your task to perform on an android device: Play the new Ariana Grande video on YouTube Image 27: 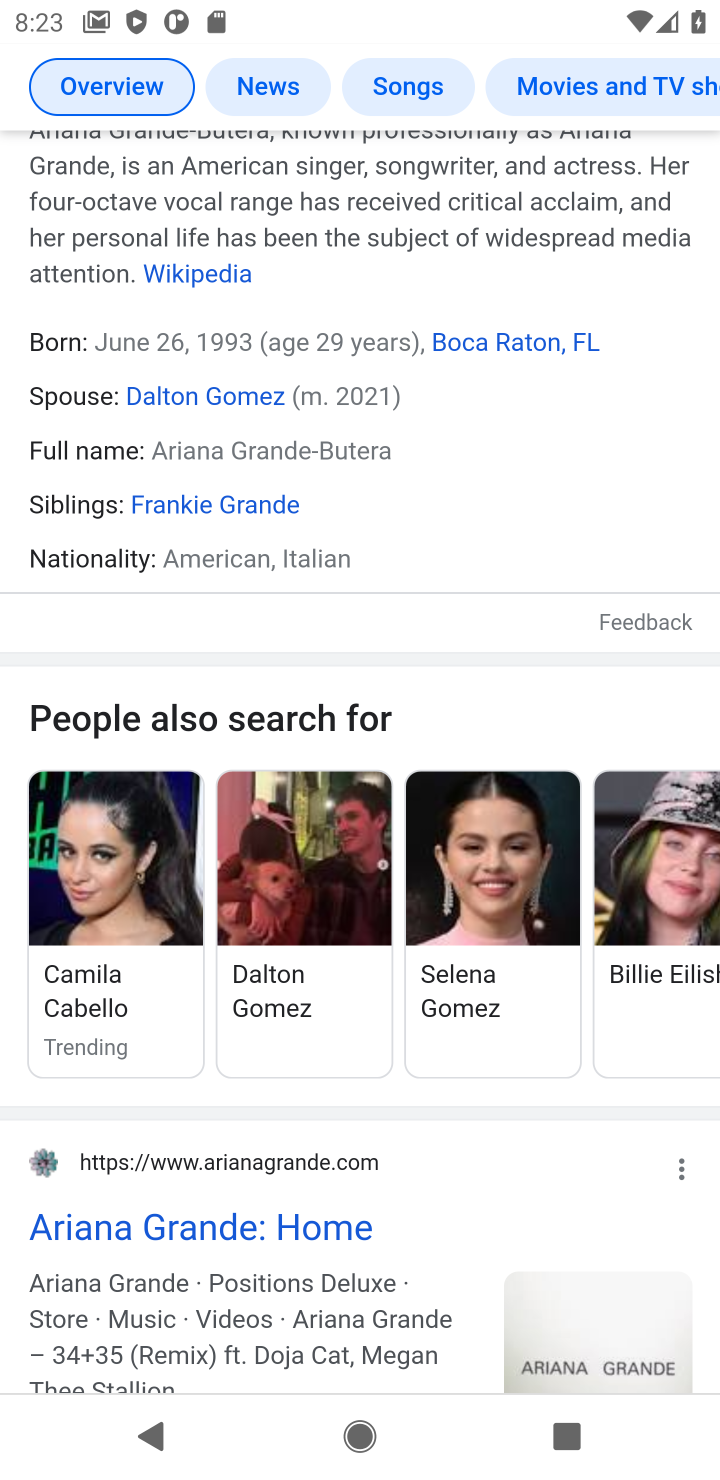
Step 27: drag from (262, 696) to (260, 1325)
Your task to perform on an android device: Play the new Ariana Grande video on YouTube Image 28: 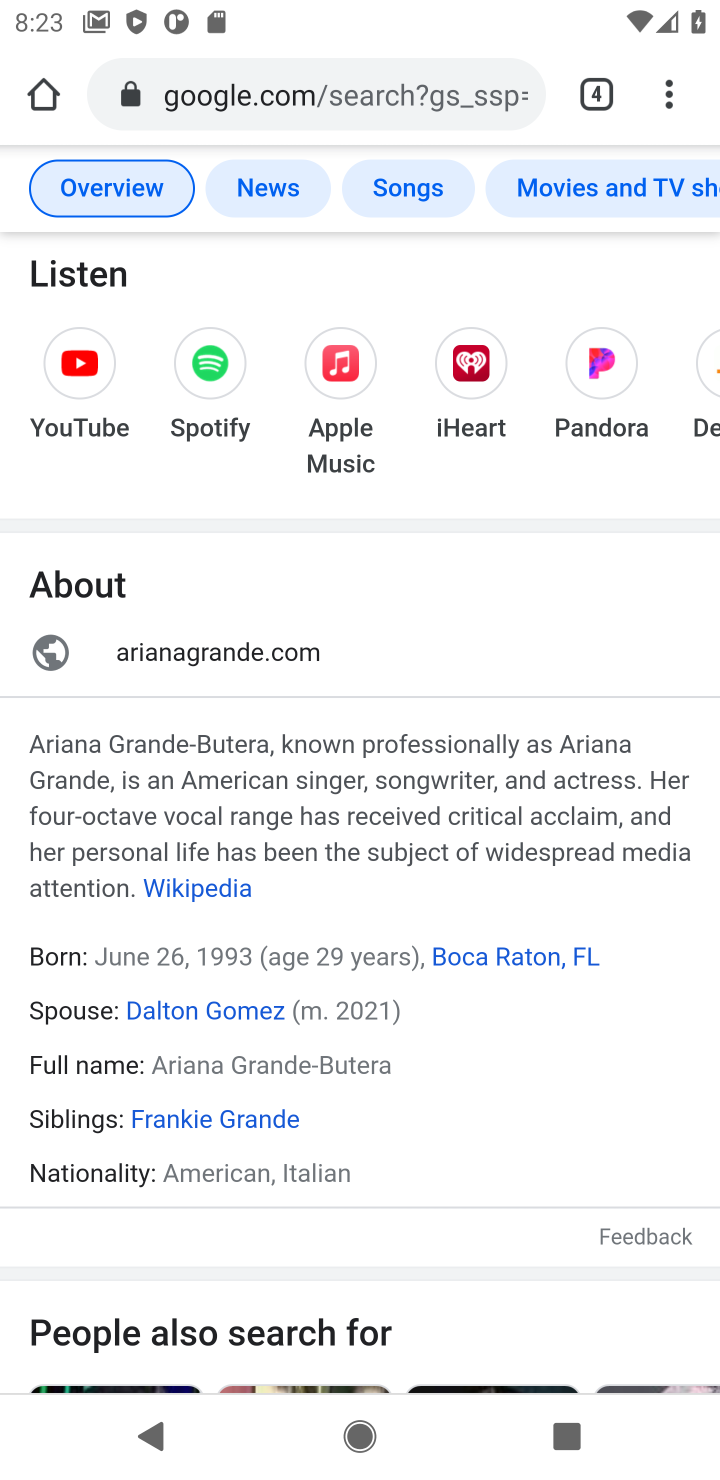
Step 28: drag from (368, 917) to (366, 539)
Your task to perform on an android device: Play the new Ariana Grande video on YouTube Image 29: 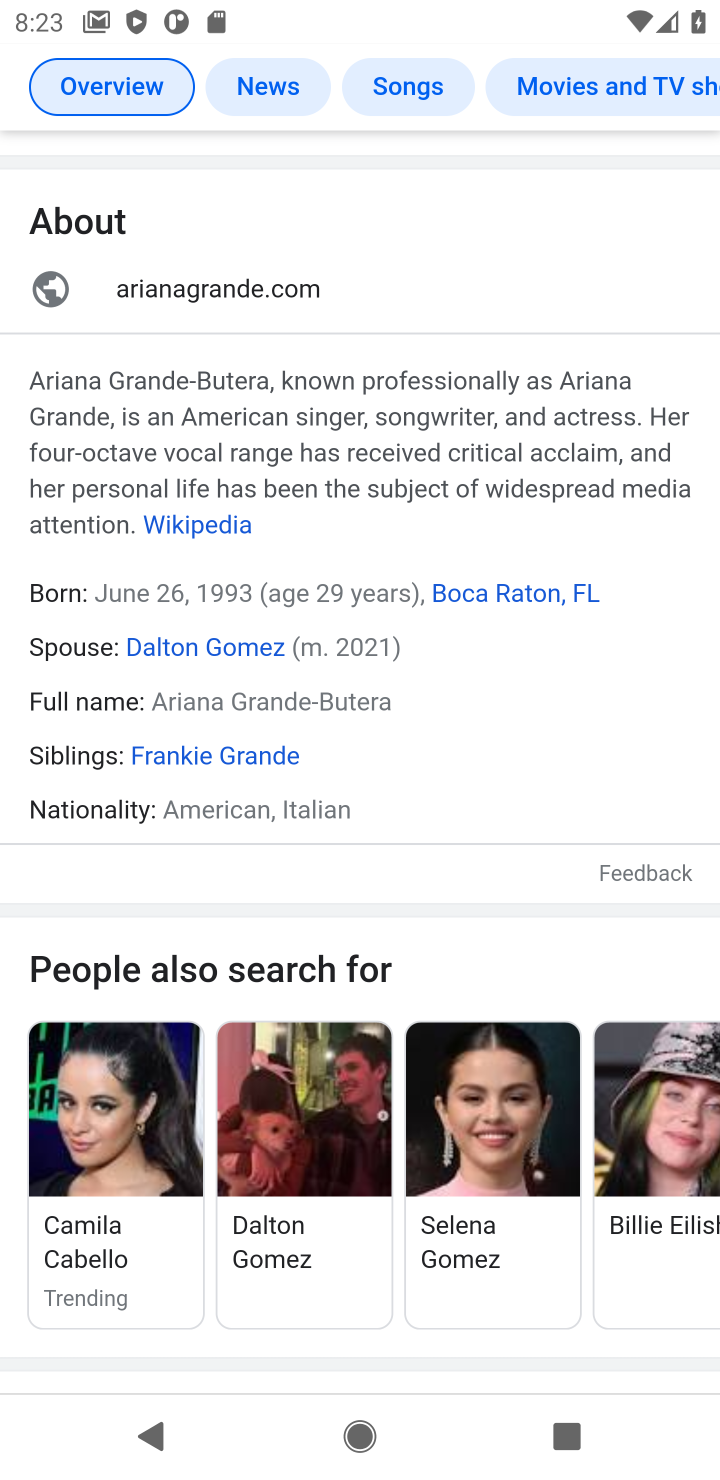
Step 29: drag from (404, 550) to (377, 1133)
Your task to perform on an android device: Play the new Ariana Grande video on YouTube Image 30: 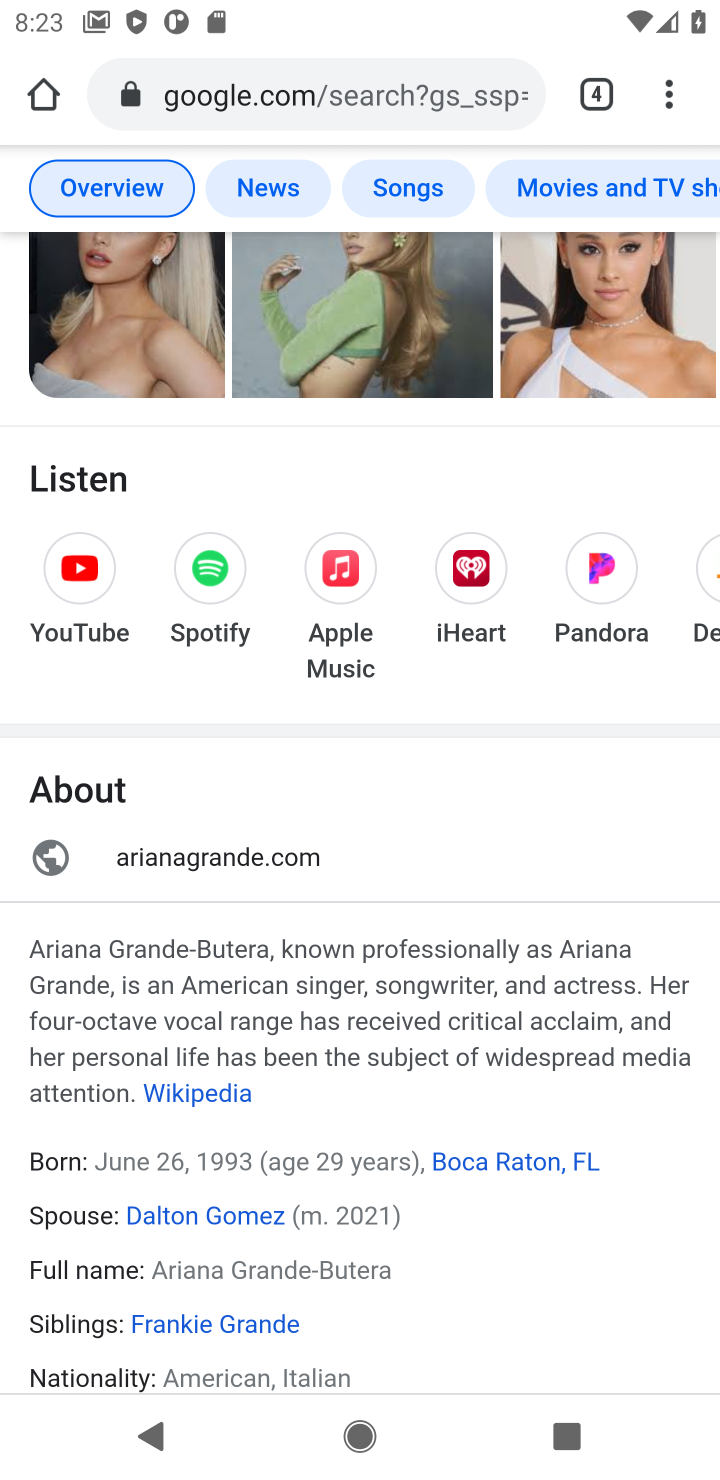
Step 30: click (113, 309)
Your task to perform on an android device: Play the new Ariana Grande video on YouTube Image 31: 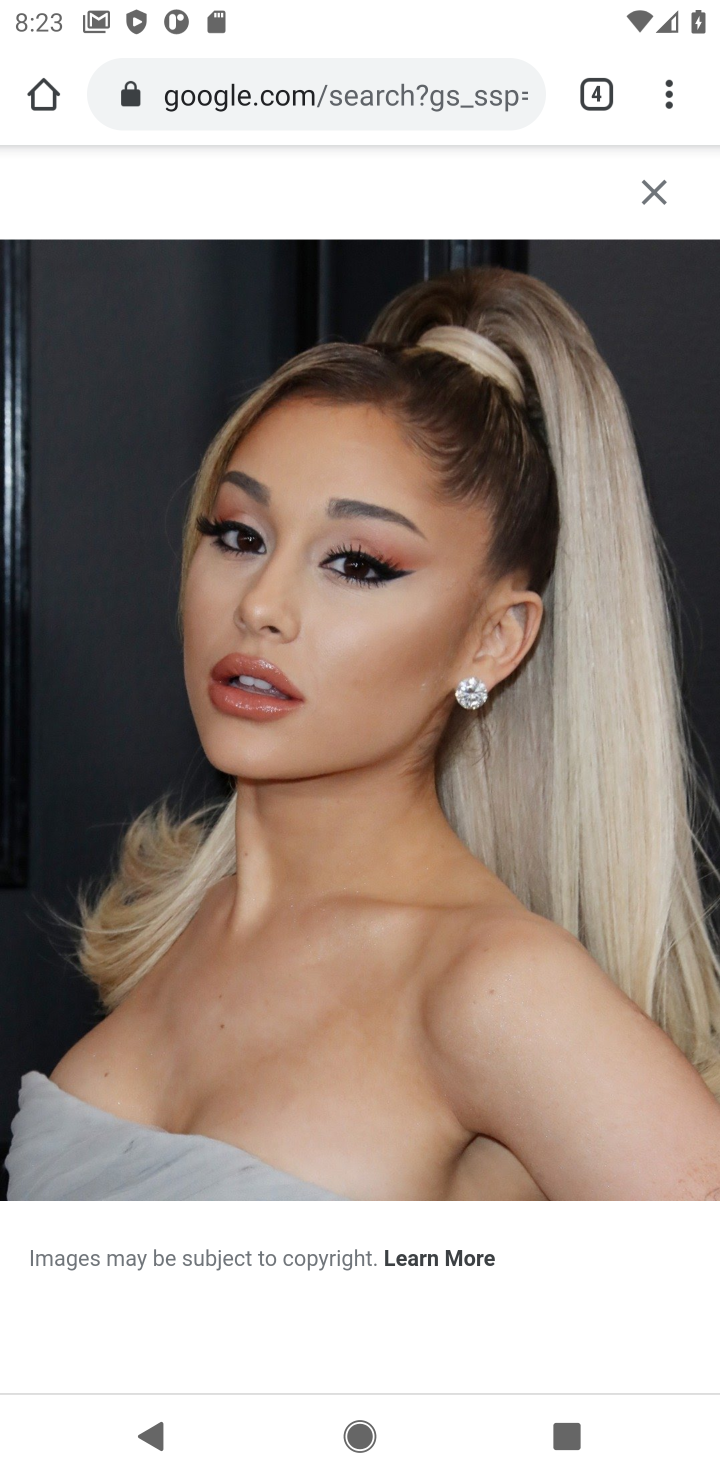
Step 31: click (401, 633)
Your task to perform on an android device: Play the new Ariana Grande video on YouTube Image 32: 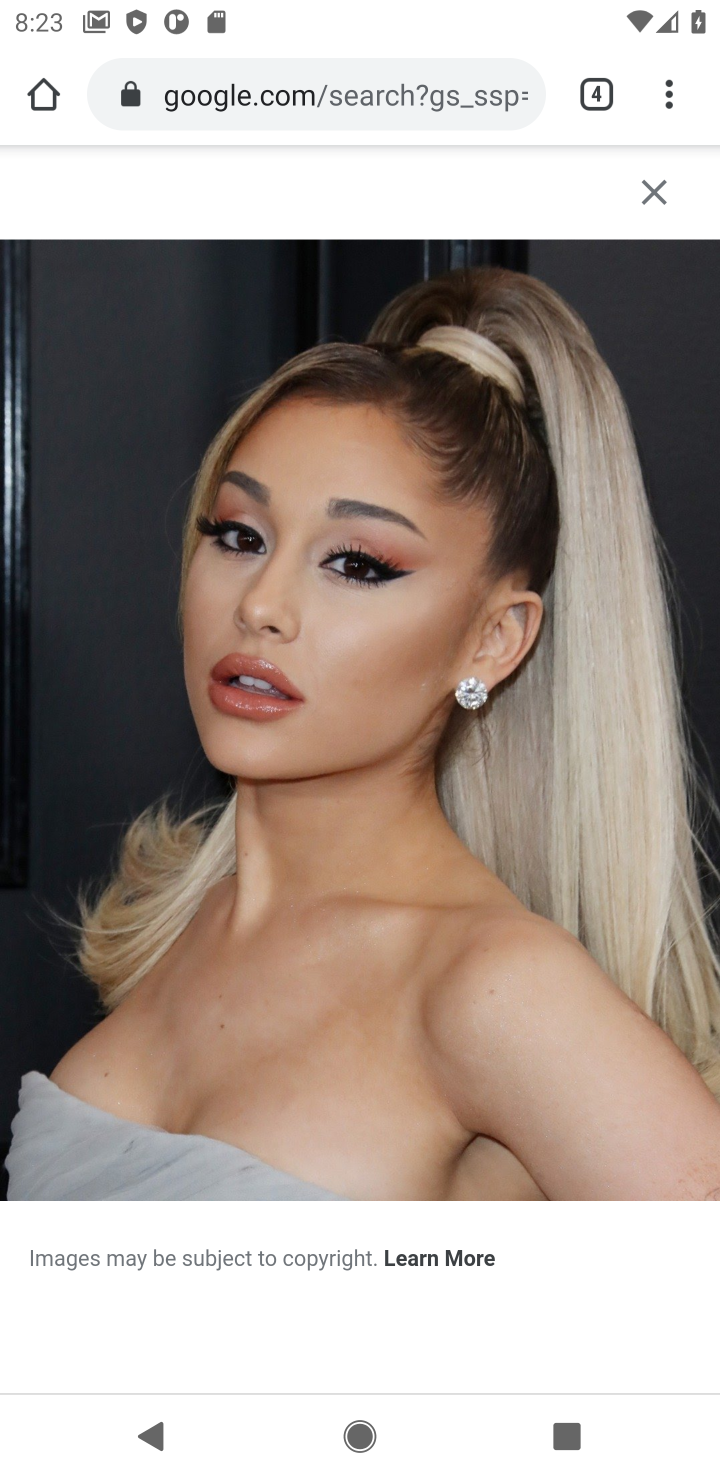
Step 32: drag from (314, 989) to (348, 702)
Your task to perform on an android device: Play the new Ariana Grande video on YouTube Image 33: 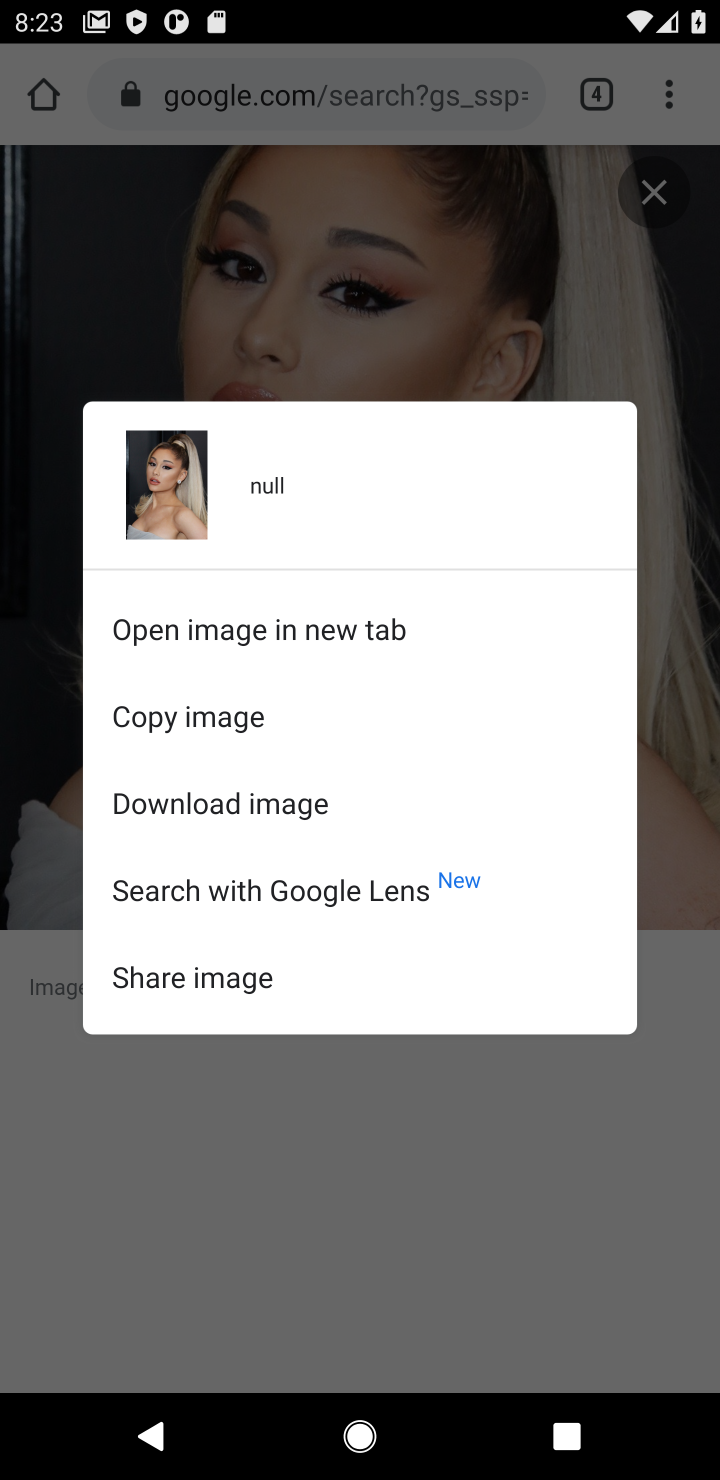
Step 33: press back button
Your task to perform on an android device: Play the new Ariana Grande video on YouTube Image 34: 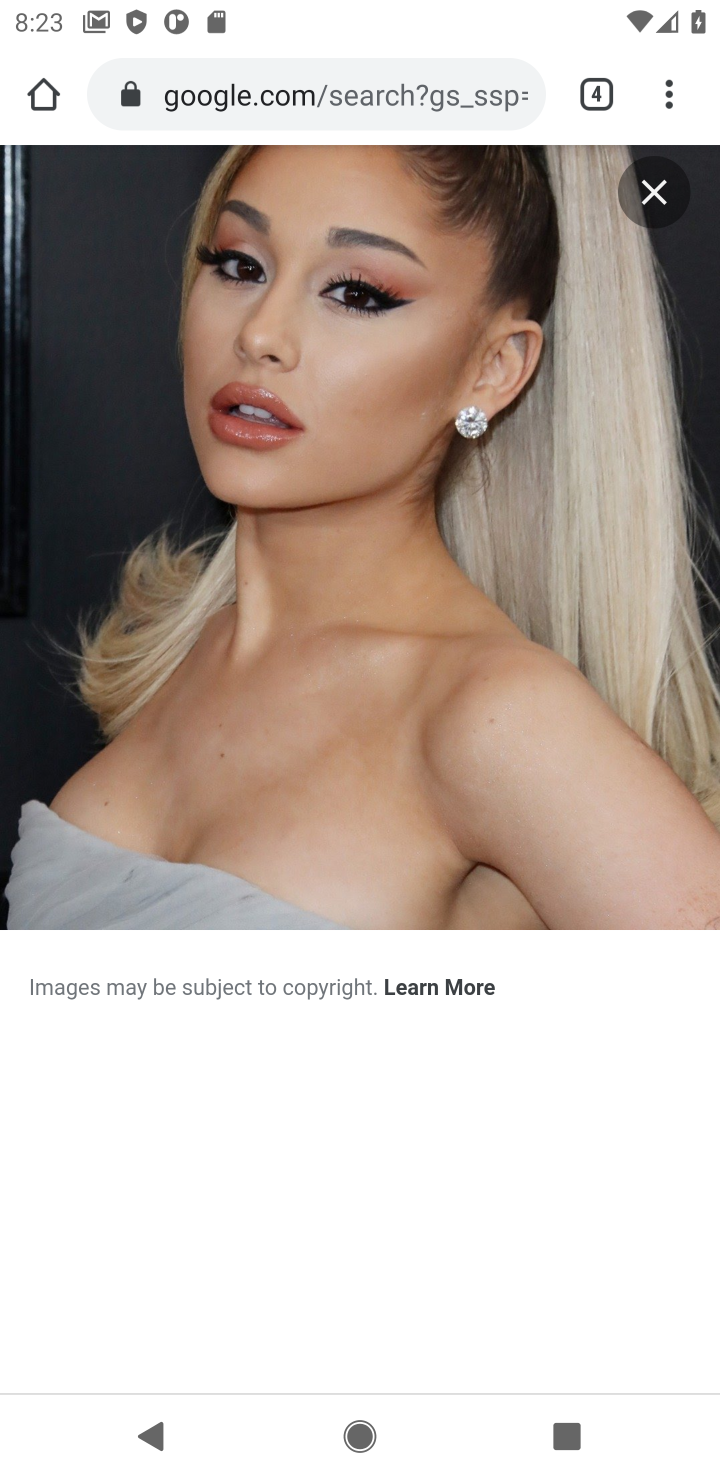
Step 34: press back button
Your task to perform on an android device: Play the new Ariana Grande video on YouTube Image 35: 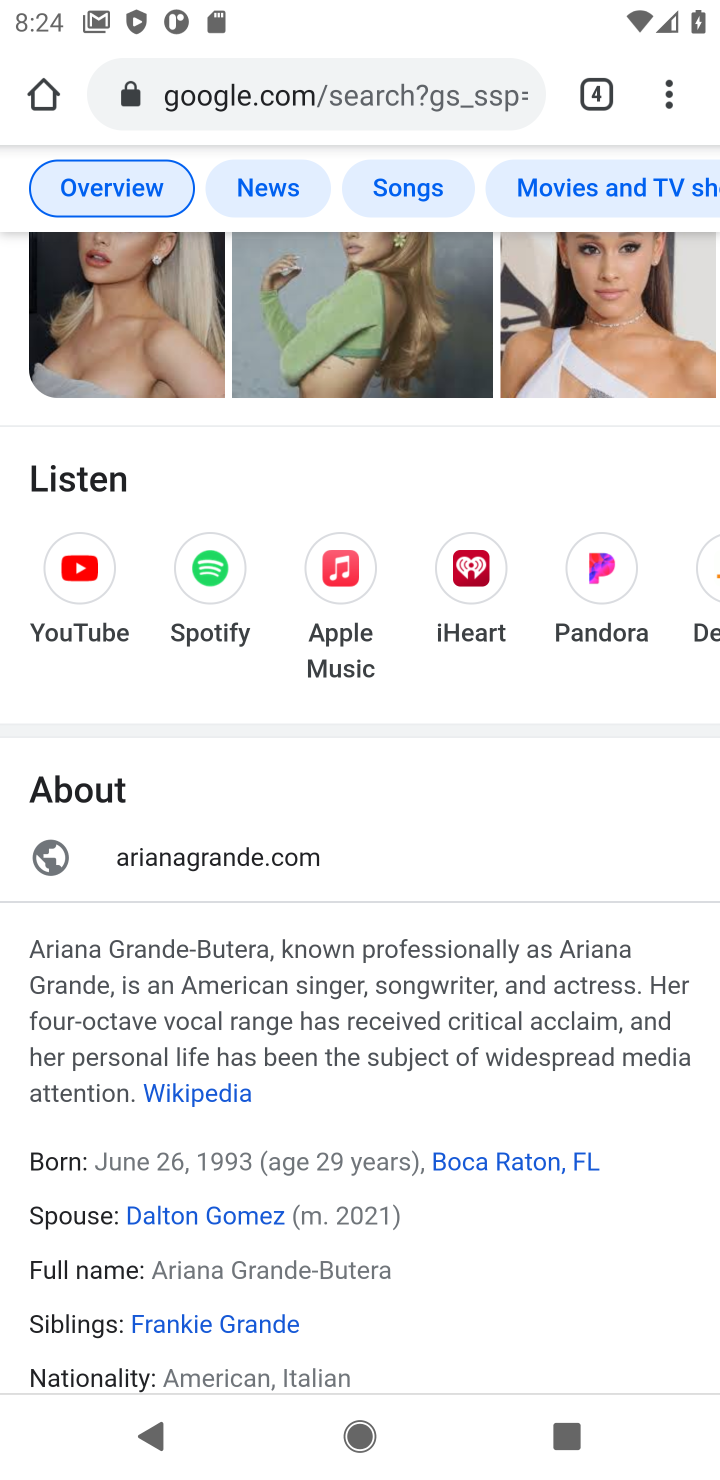
Step 35: drag from (385, 1062) to (411, 838)
Your task to perform on an android device: Play the new Ariana Grande video on YouTube Image 36: 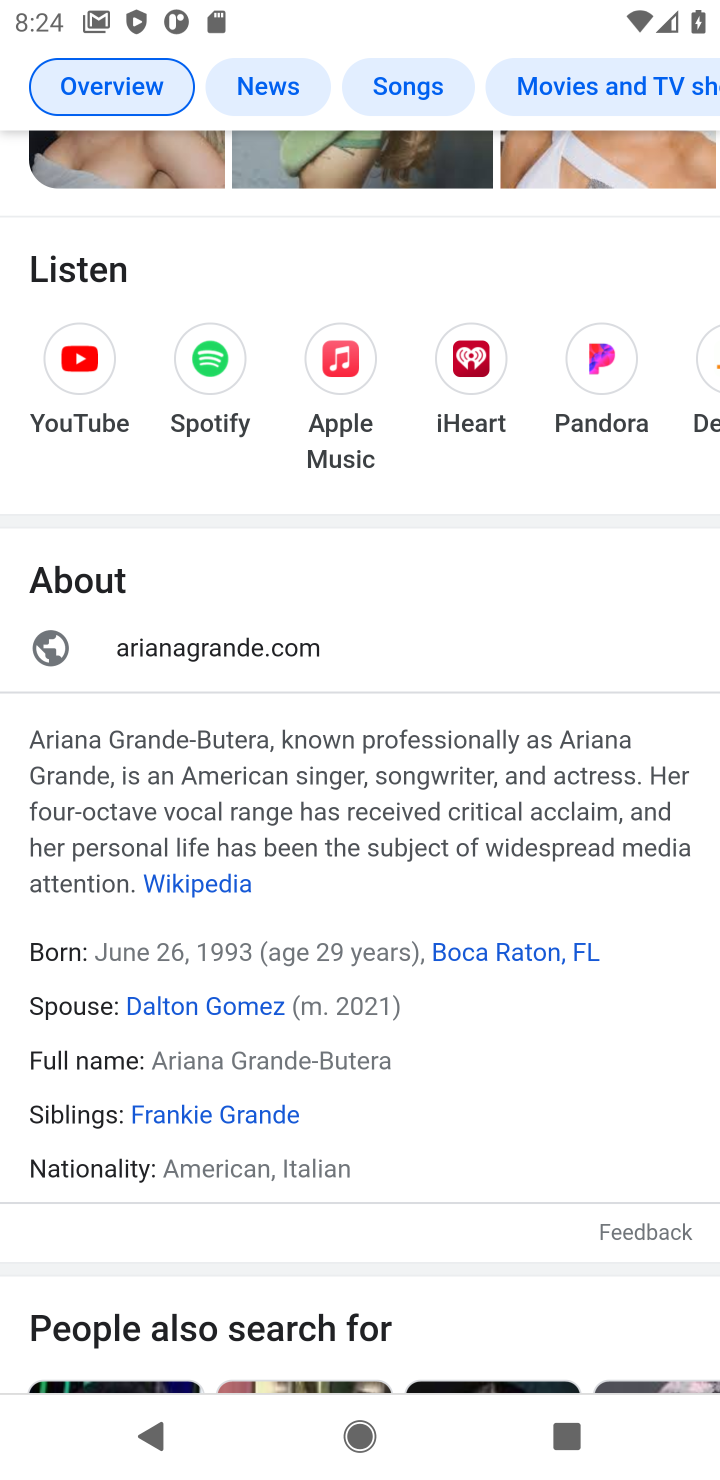
Step 36: click (236, 1224)
Your task to perform on an android device: Play the new Ariana Grande video on YouTube Image 37: 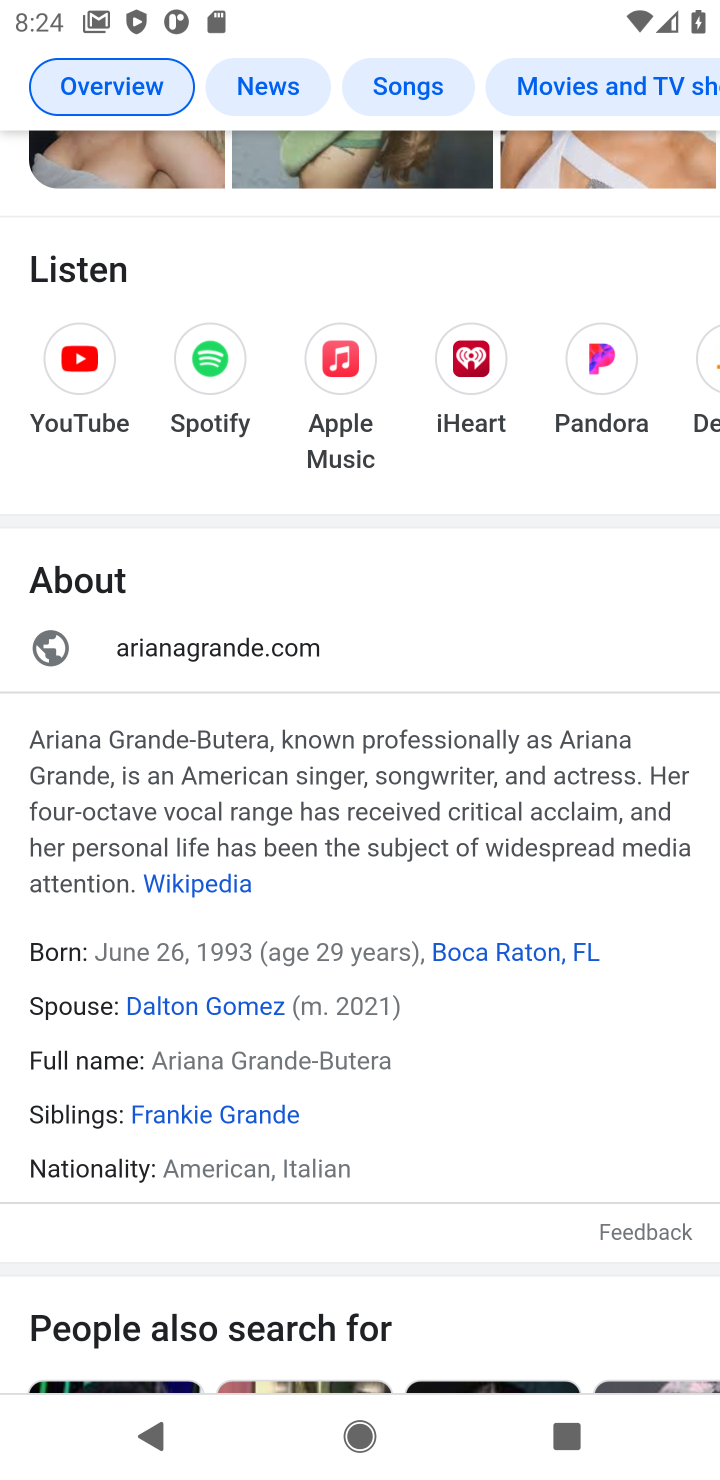
Step 37: click (230, 864)
Your task to perform on an android device: Play the new Ariana Grande video on YouTube Image 38: 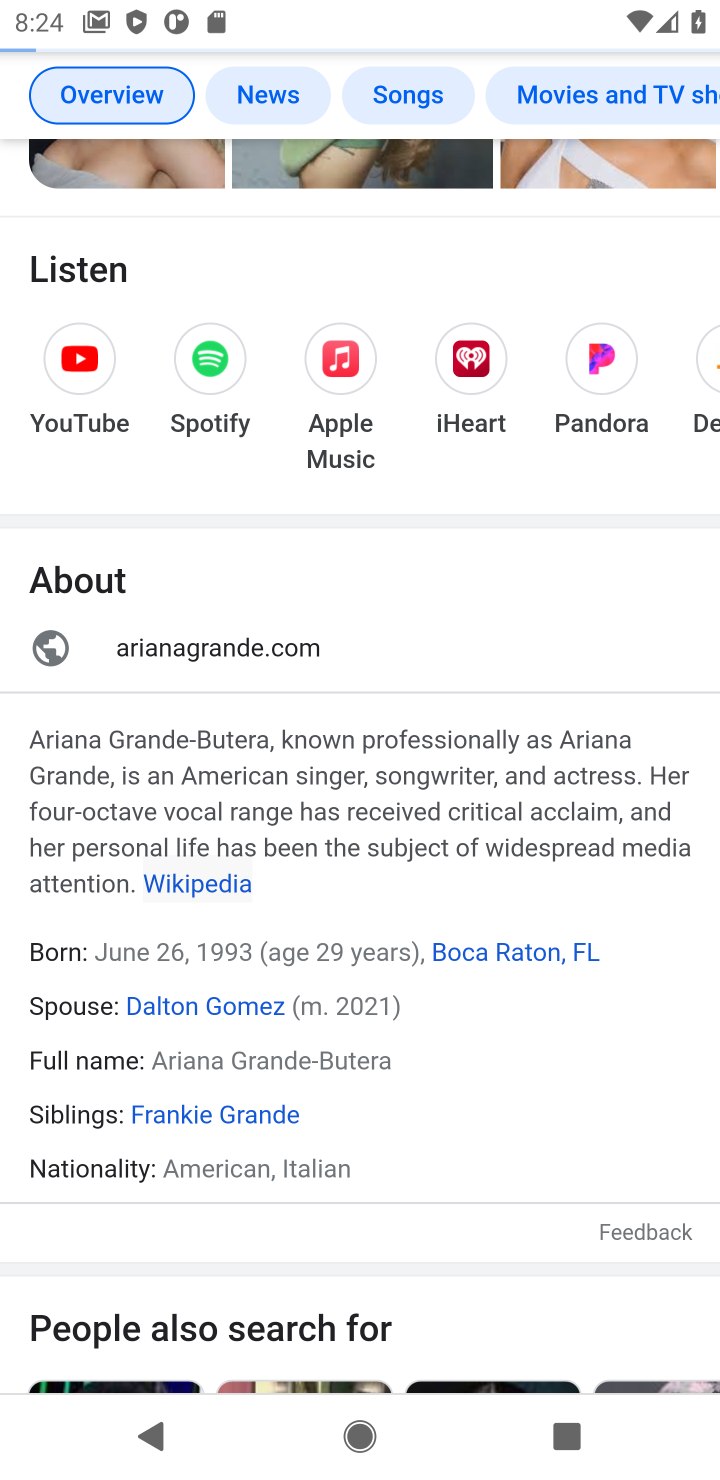
Step 38: task complete